Your task to perform on an android device: uninstall "Microsoft Excel" Image 0: 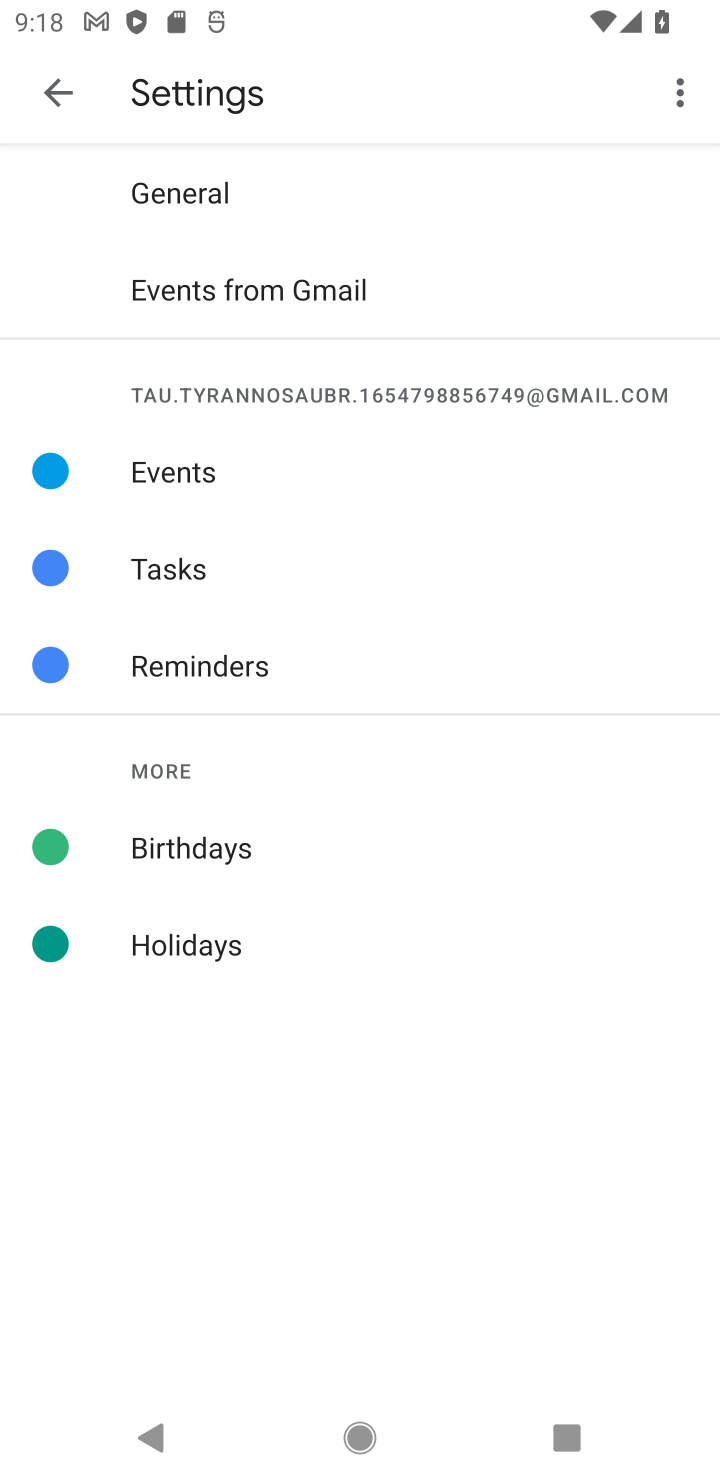
Step 0: click (46, 92)
Your task to perform on an android device: uninstall "Microsoft Excel" Image 1: 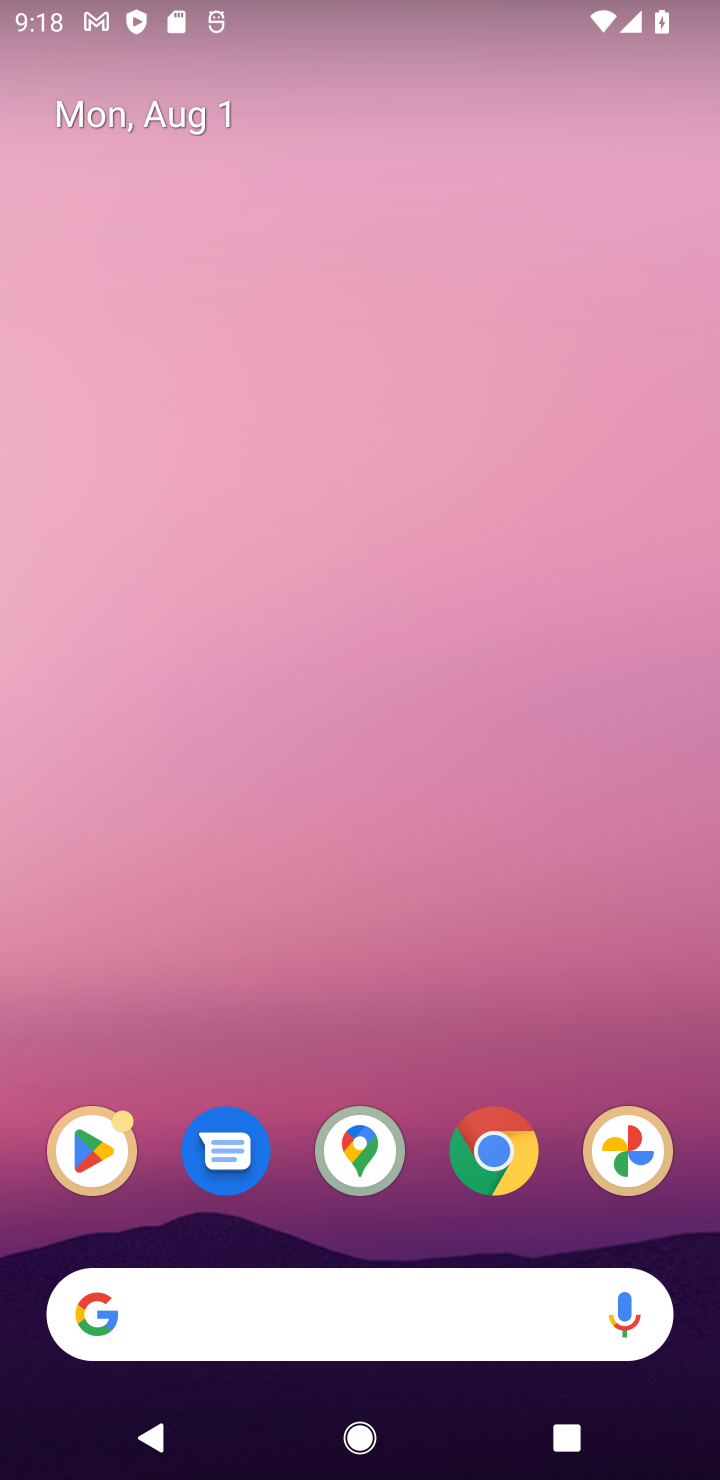
Step 1: drag from (368, 1284) to (270, 392)
Your task to perform on an android device: uninstall "Microsoft Excel" Image 2: 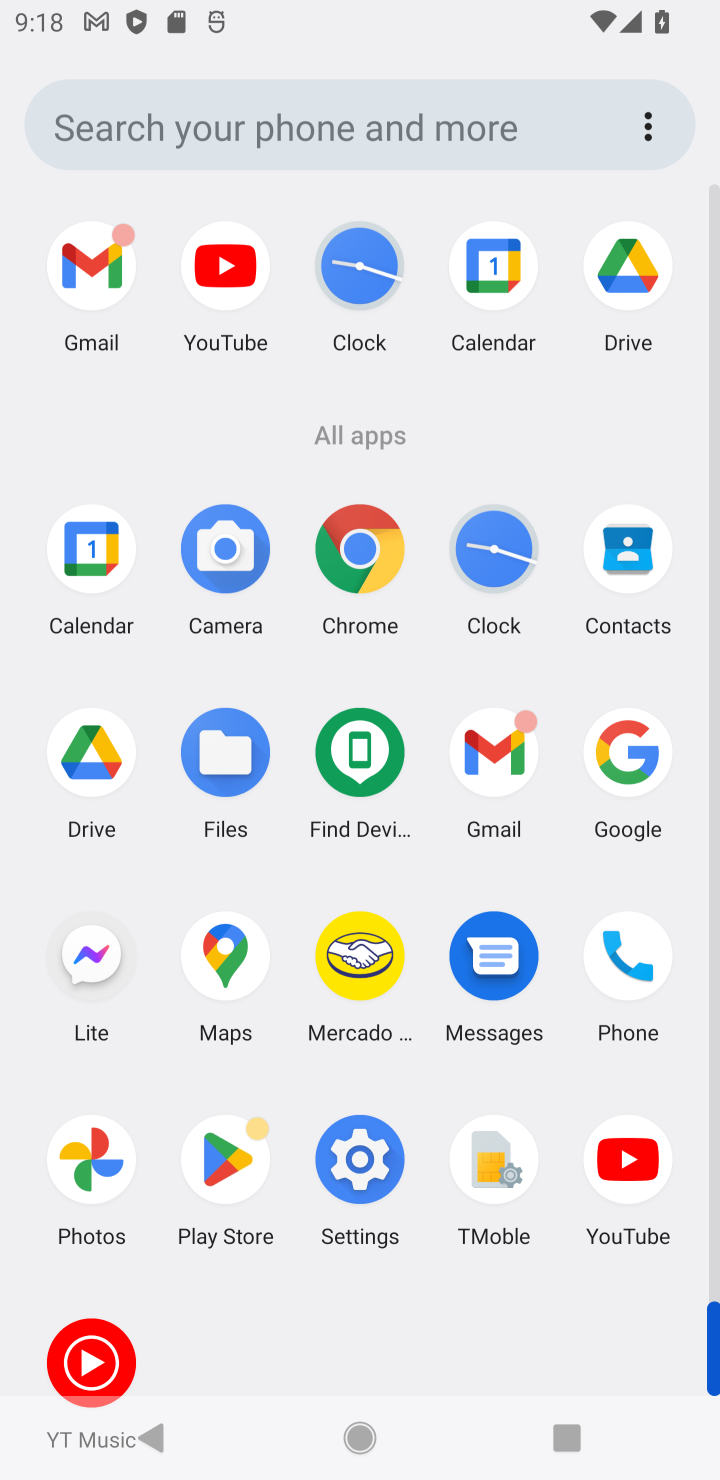
Step 2: drag from (357, 281) to (298, 346)
Your task to perform on an android device: uninstall "Microsoft Excel" Image 3: 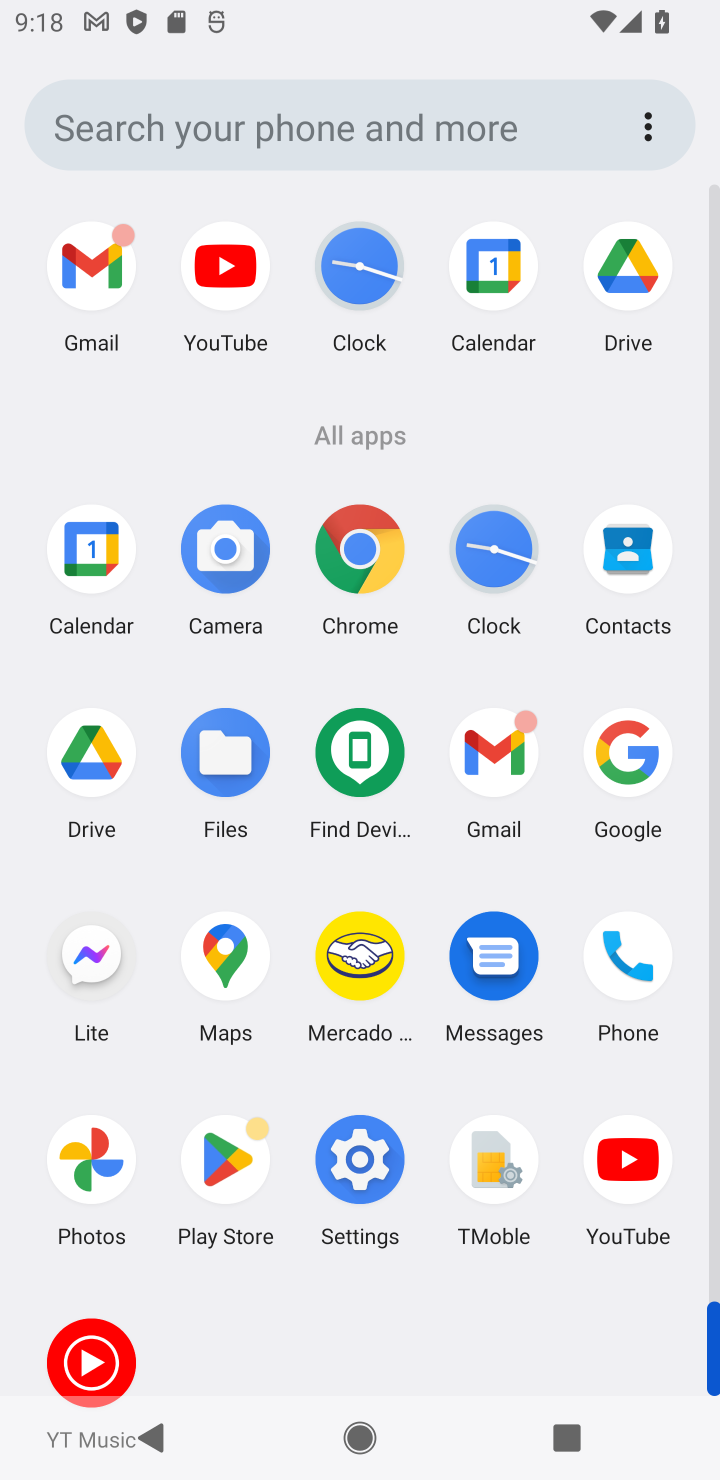
Step 3: drag from (454, 1103) to (307, 282)
Your task to perform on an android device: uninstall "Microsoft Excel" Image 4: 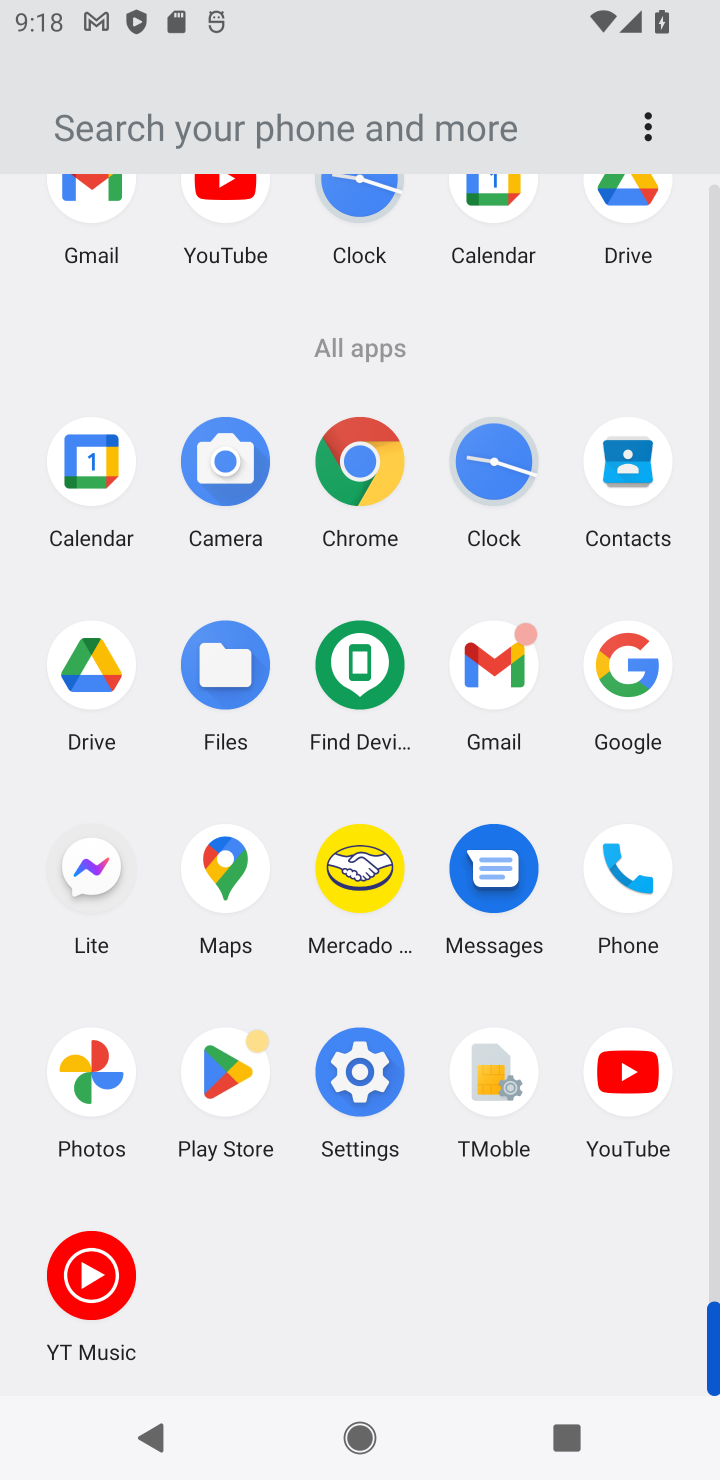
Step 4: click (214, 1097)
Your task to perform on an android device: uninstall "Microsoft Excel" Image 5: 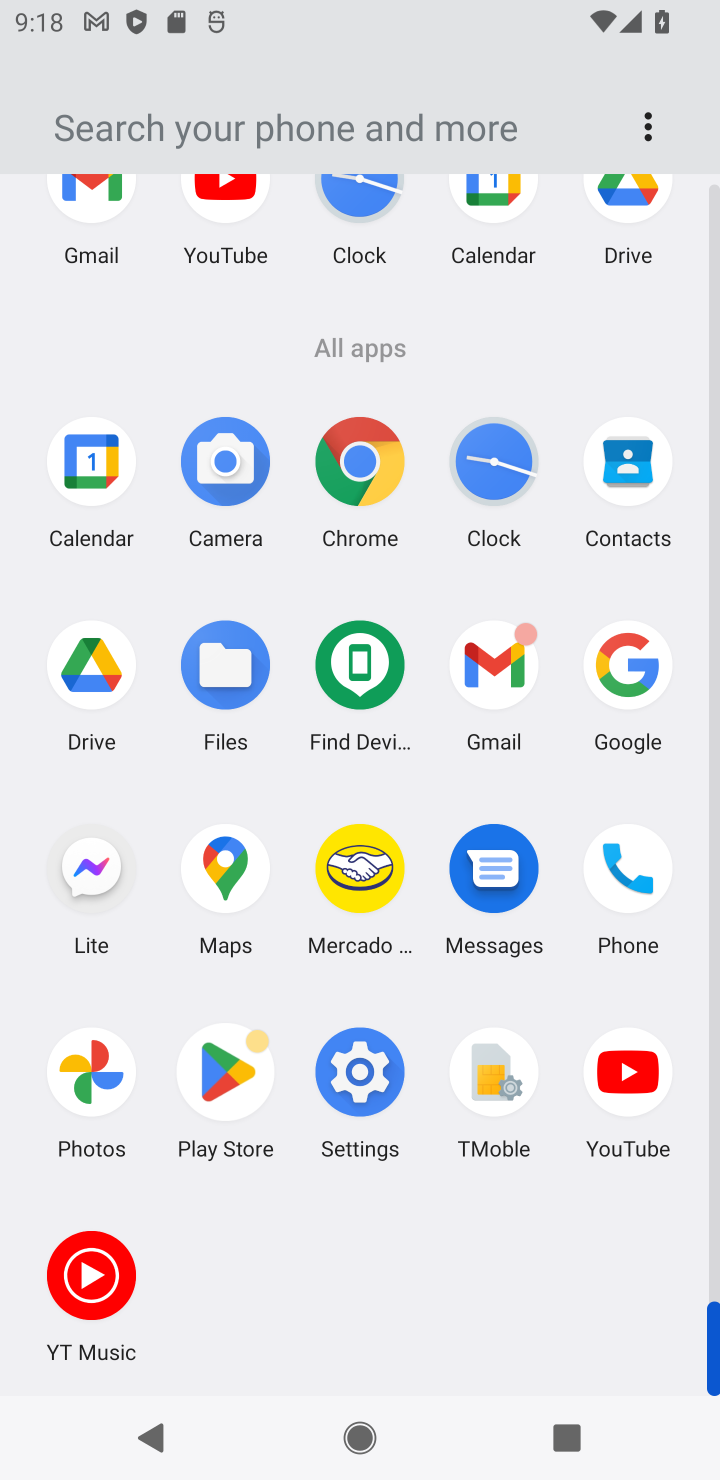
Step 5: click (220, 1090)
Your task to perform on an android device: uninstall "Microsoft Excel" Image 6: 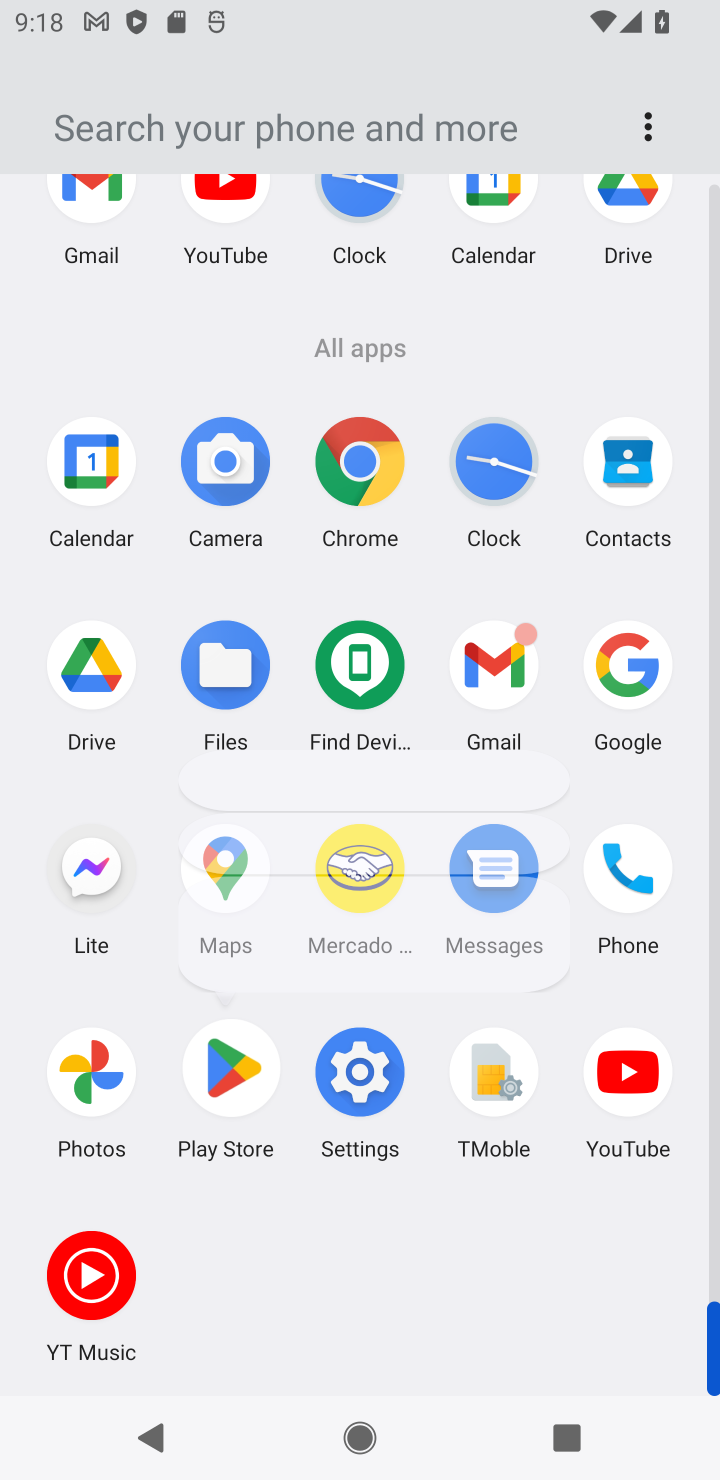
Step 6: click (235, 1084)
Your task to perform on an android device: uninstall "Microsoft Excel" Image 7: 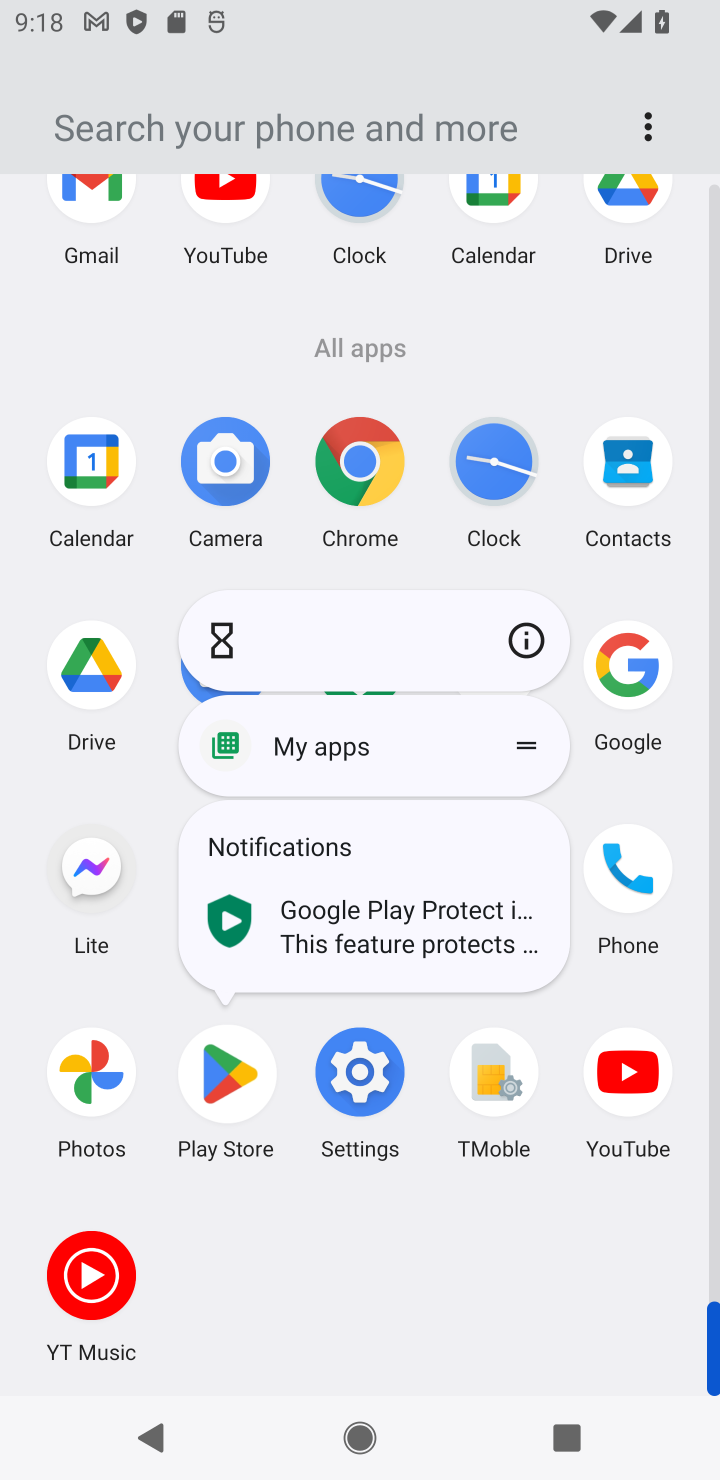
Step 7: click (237, 1088)
Your task to perform on an android device: uninstall "Microsoft Excel" Image 8: 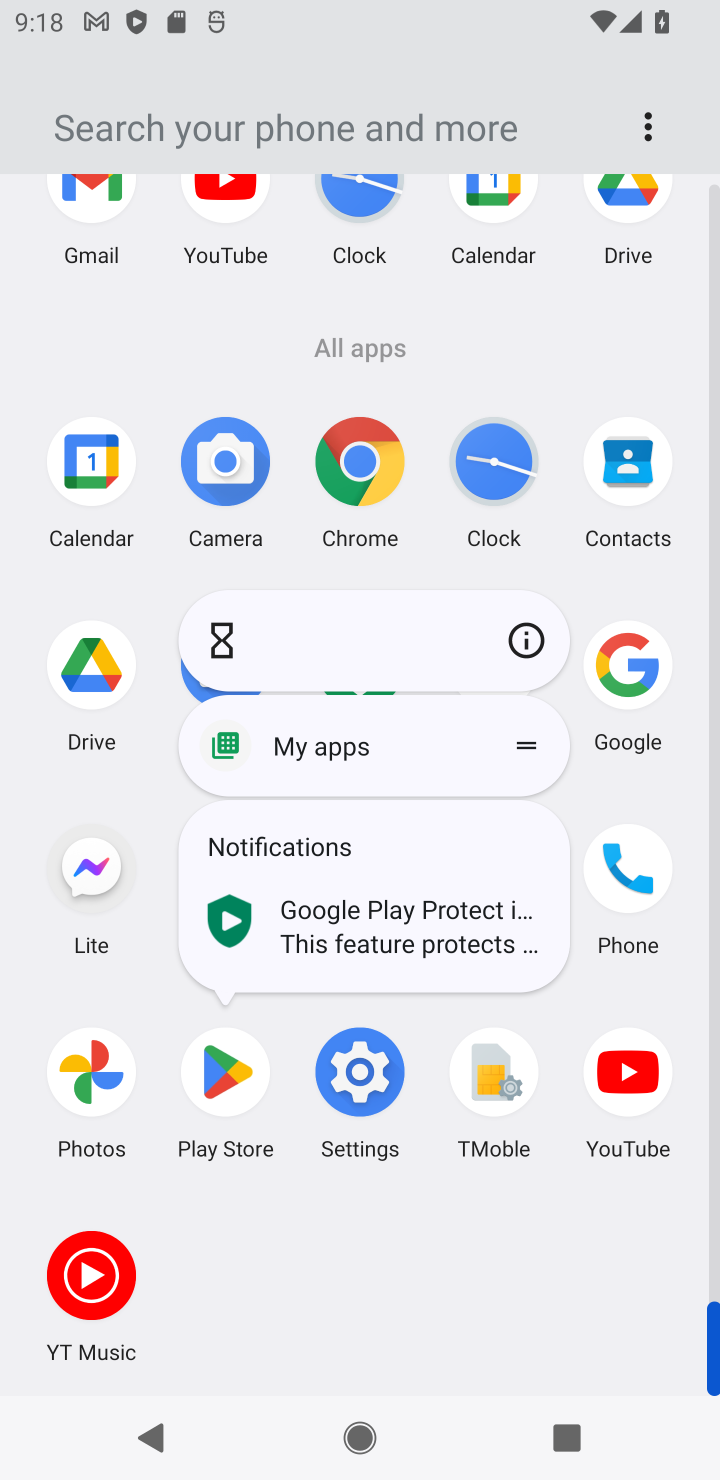
Step 8: click (201, 1049)
Your task to perform on an android device: uninstall "Microsoft Excel" Image 9: 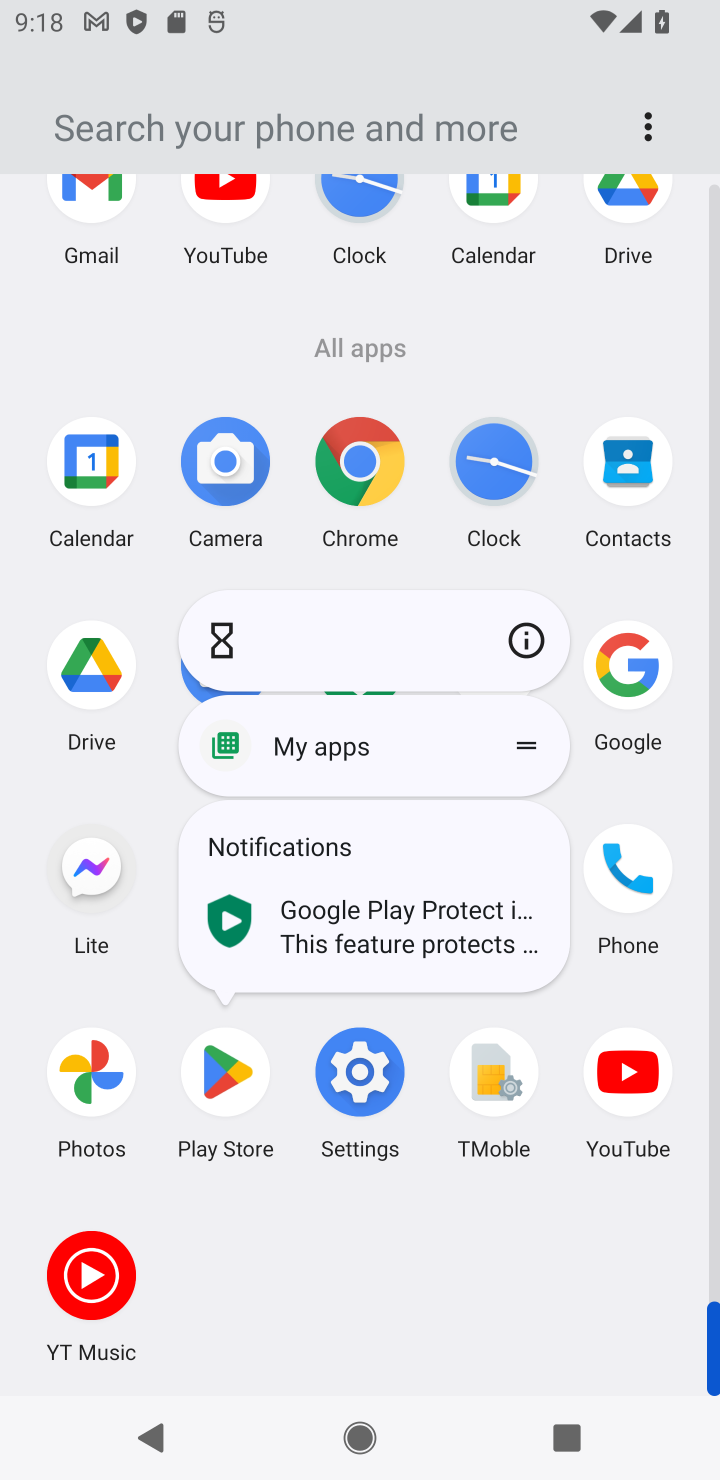
Step 9: click (207, 1065)
Your task to perform on an android device: uninstall "Microsoft Excel" Image 10: 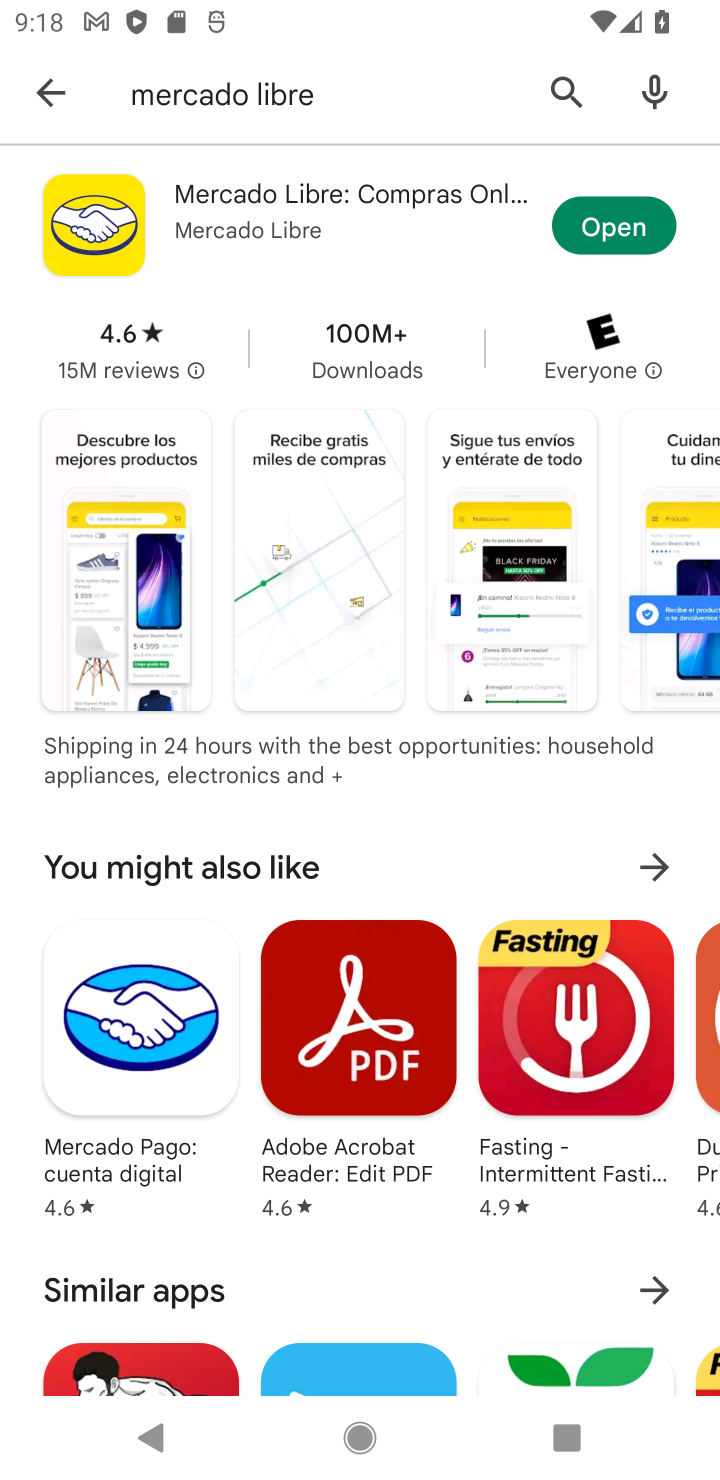
Step 10: click (58, 103)
Your task to perform on an android device: uninstall "Microsoft Excel" Image 11: 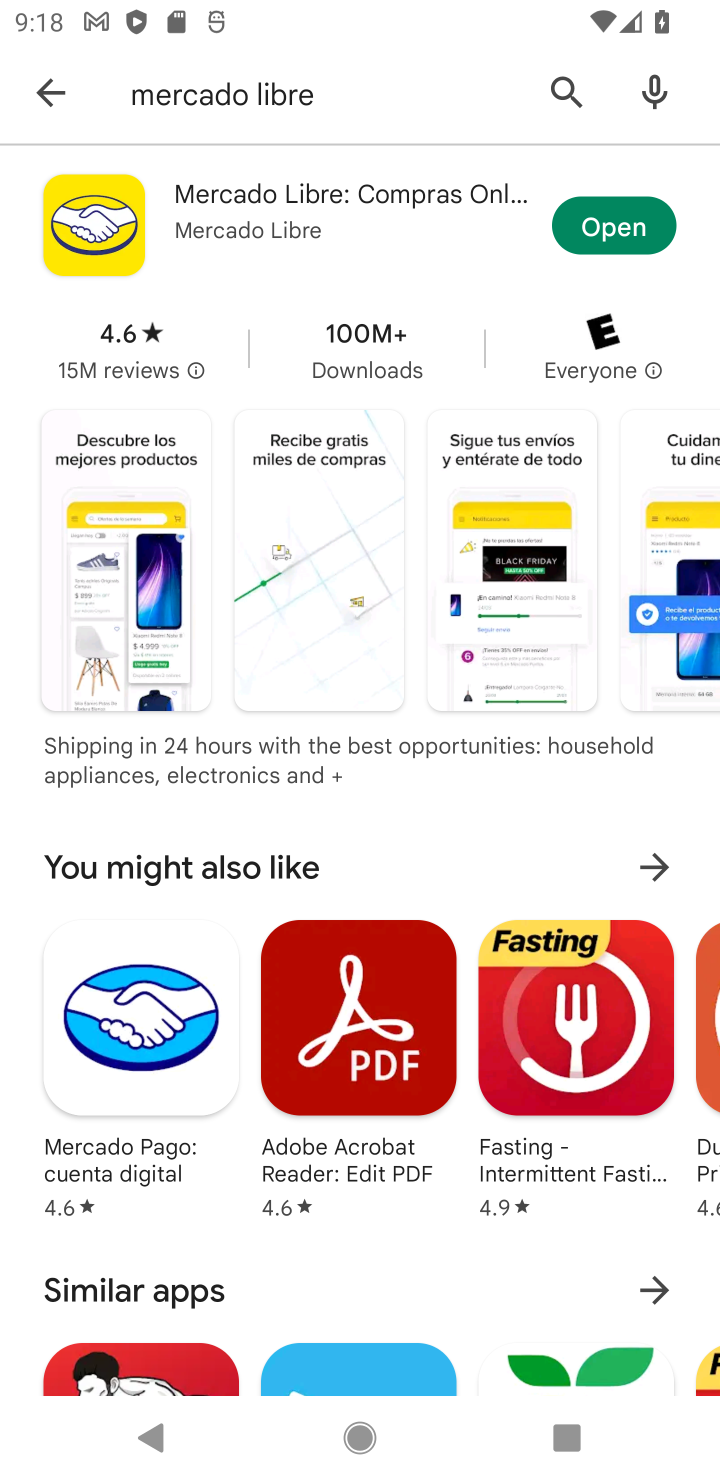
Step 11: click (38, 91)
Your task to perform on an android device: uninstall "Microsoft Excel" Image 12: 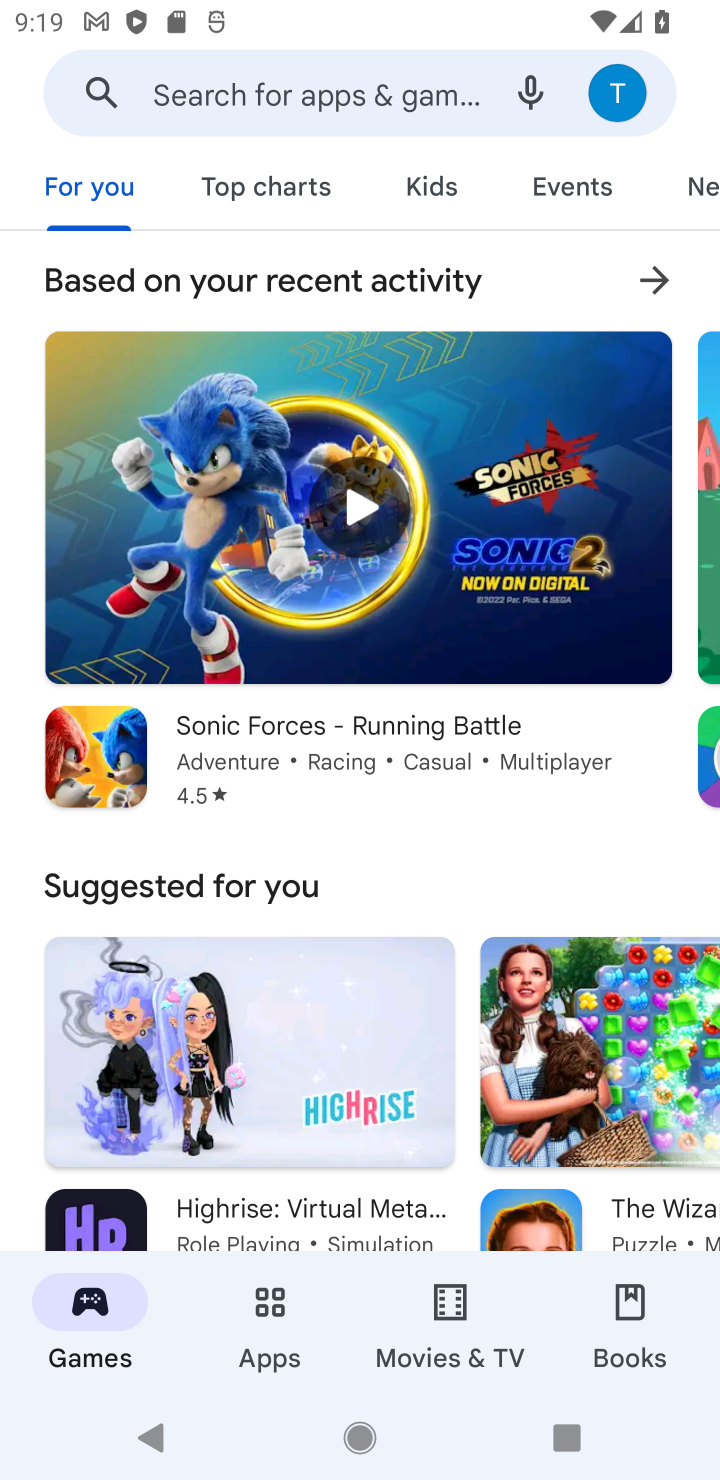
Step 12: press back button
Your task to perform on an android device: uninstall "Microsoft Excel" Image 13: 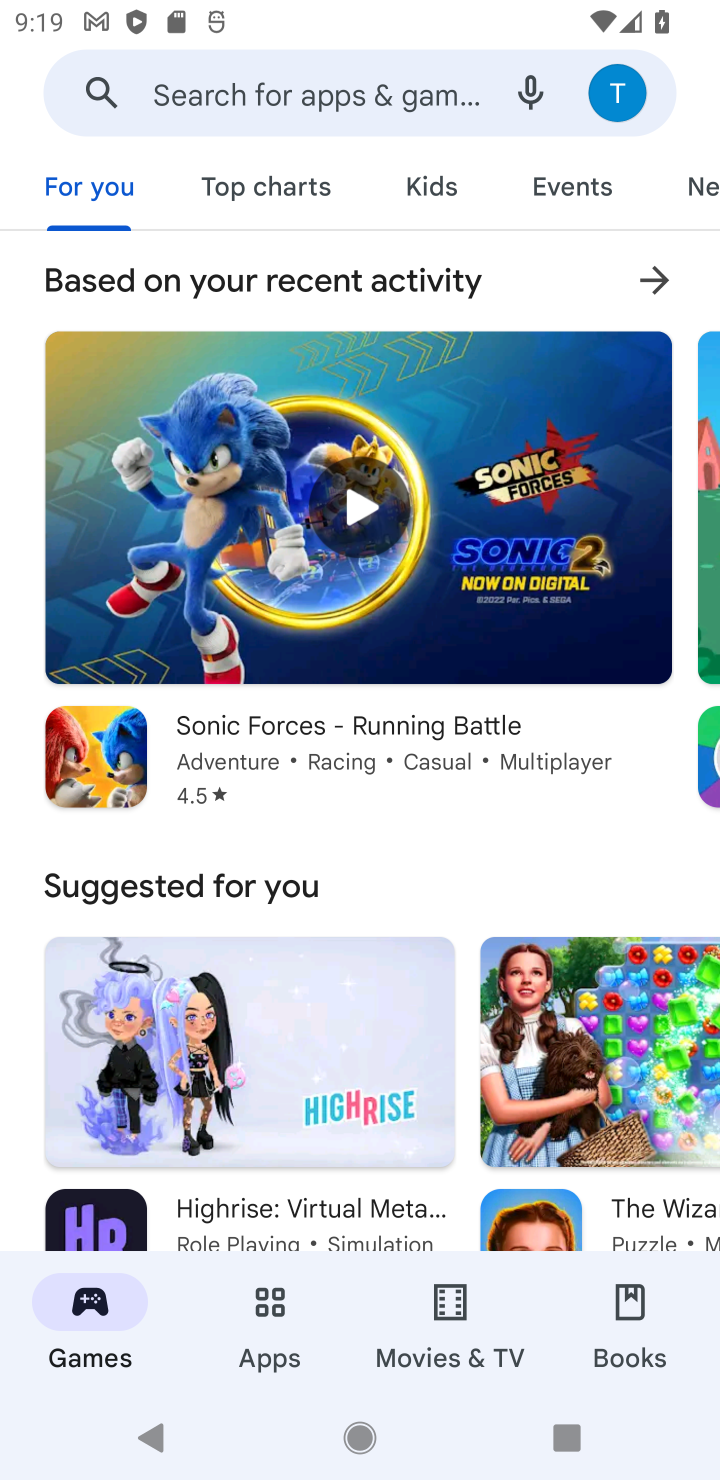
Step 13: press back button
Your task to perform on an android device: uninstall "Microsoft Excel" Image 14: 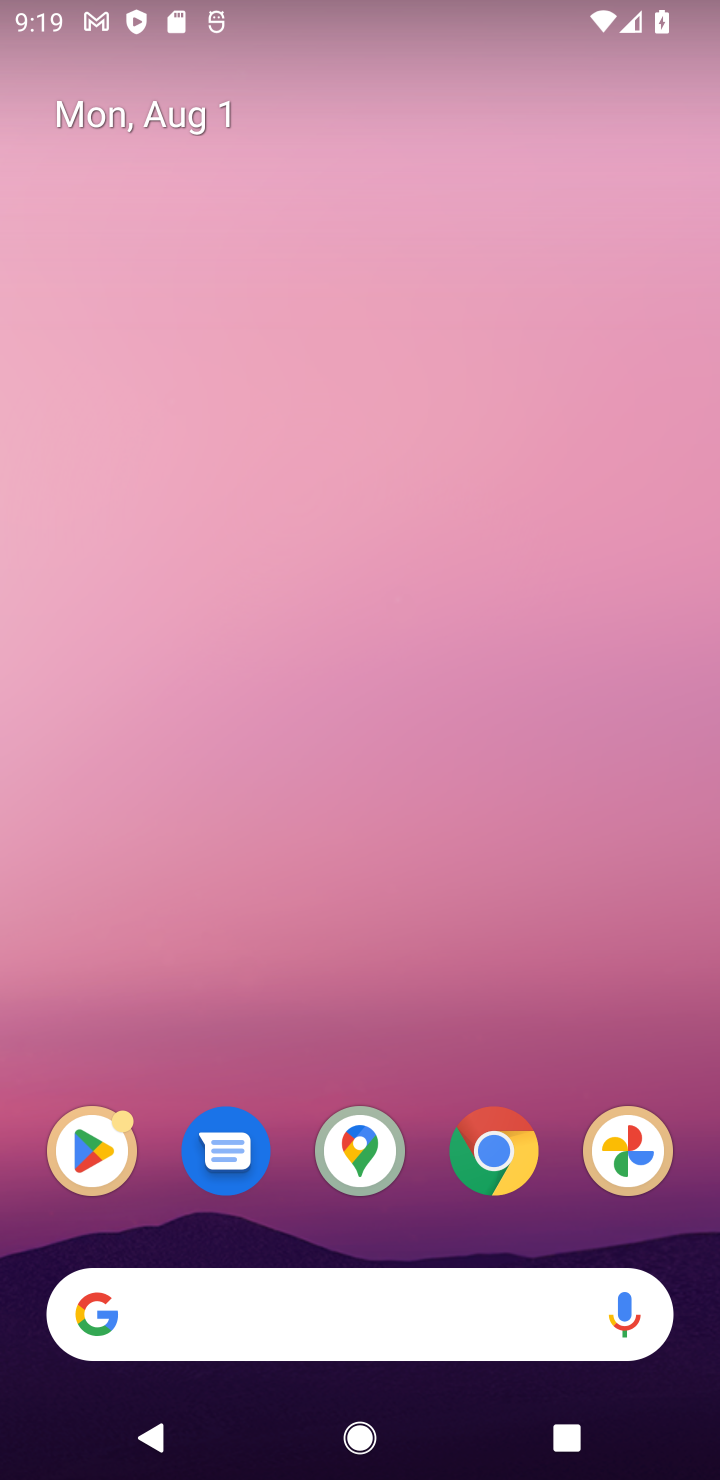
Step 14: drag from (323, 1230) to (188, 263)
Your task to perform on an android device: uninstall "Microsoft Excel" Image 15: 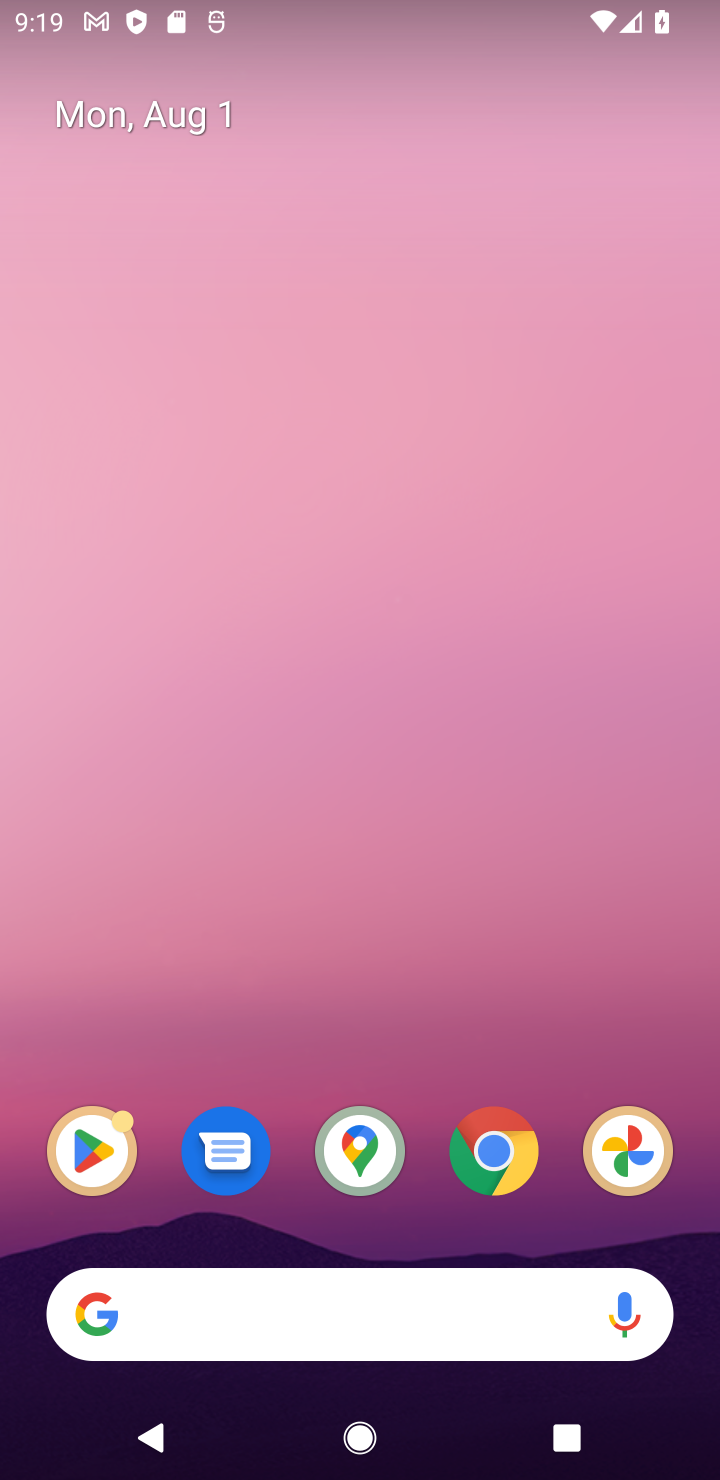
Step 15: drag from (416, 1190) to (317, 521)
Your task to perform on an android device: uninstall "Microsoft Excel" Image 16: 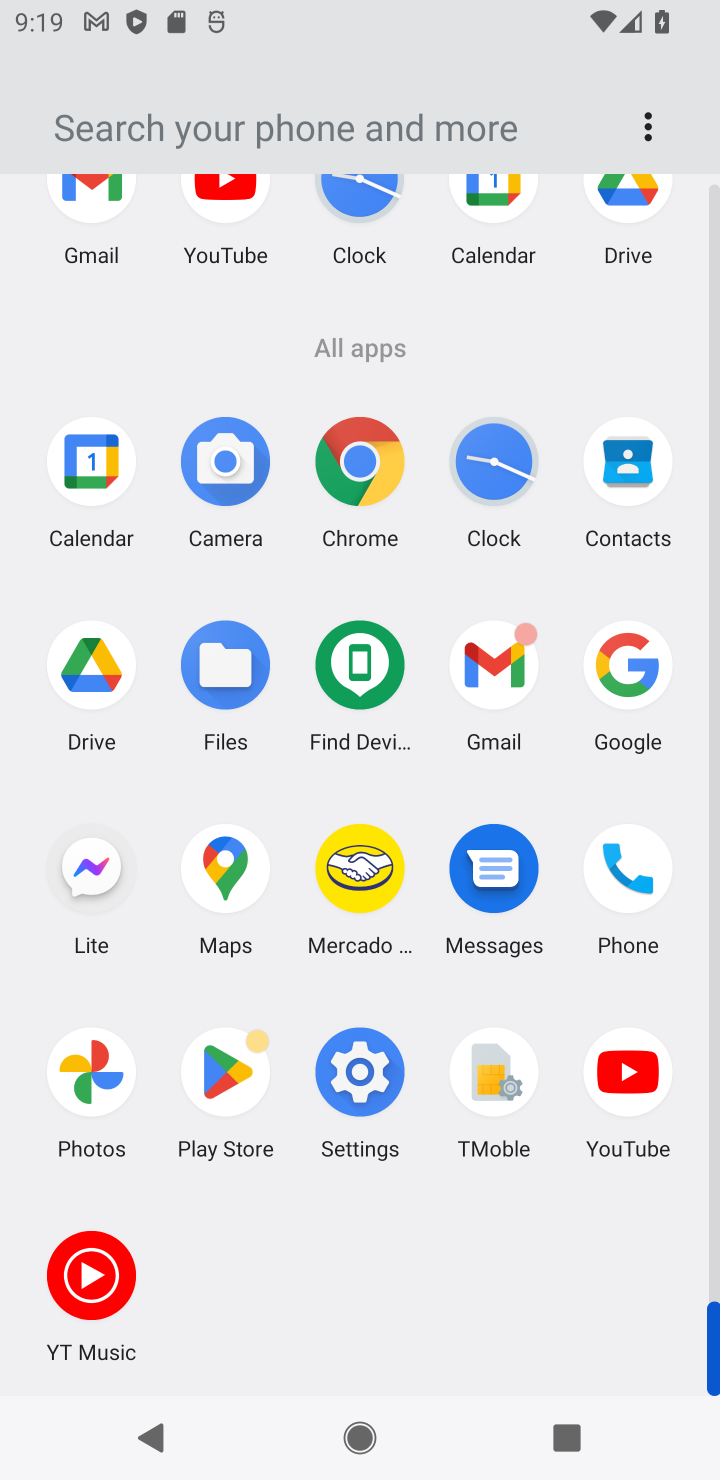
Step 16: click (220, 1063)
Your task to perform on an android device: uninstall "Microsoft Excel" Image 17: 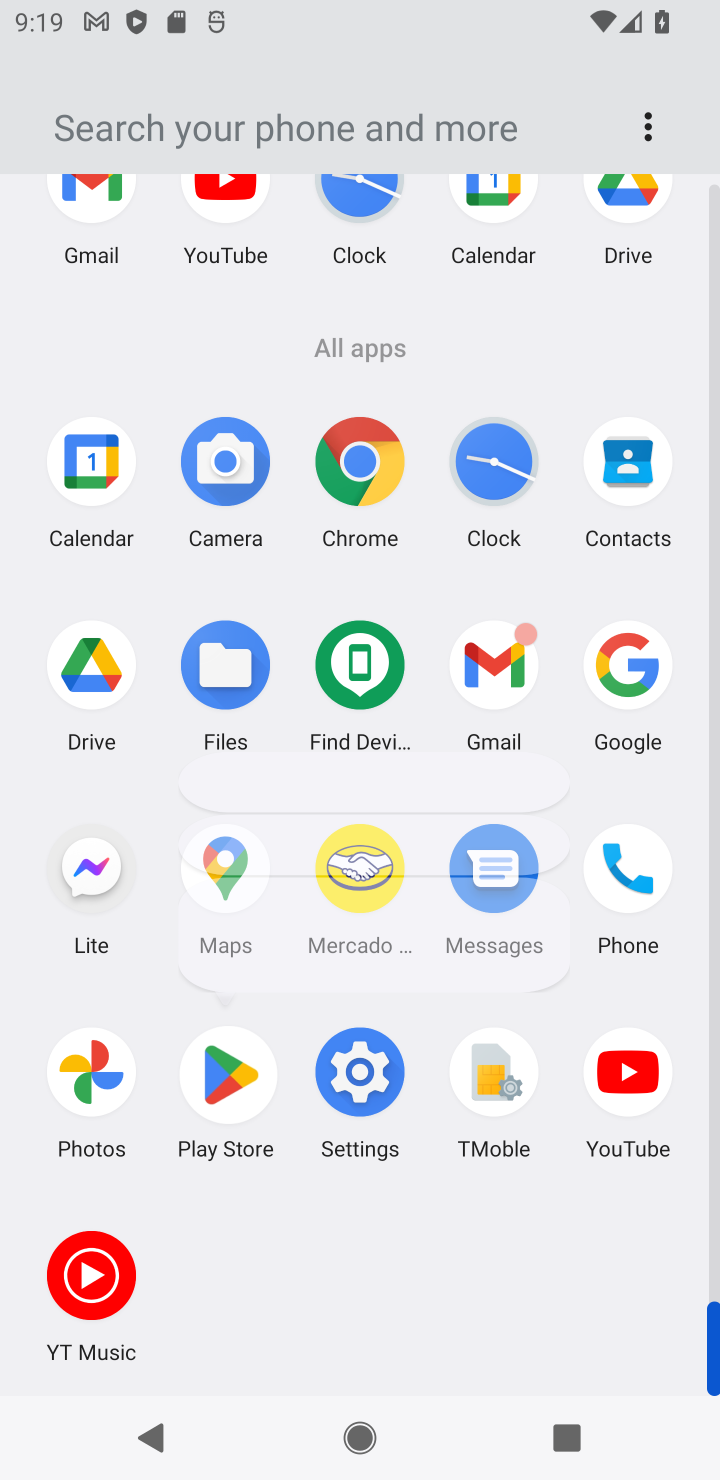
Step 17: click (225, 1069)
Your task to perform on an android device: uninstall "Microsoft Excel" Image 18: 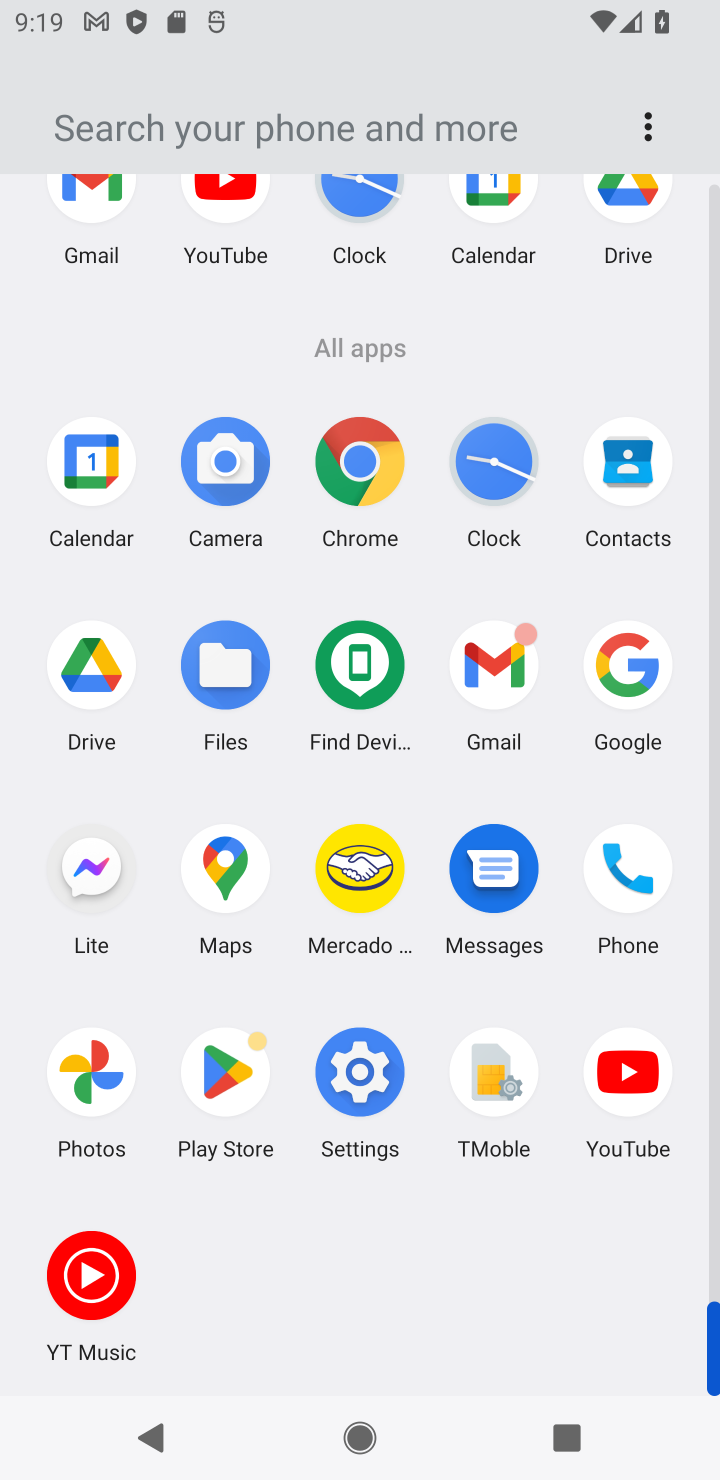
Step 18: click (235, 1067)
Your task to perform on an android device: uninstall "Microsoft Excel" Image 19: 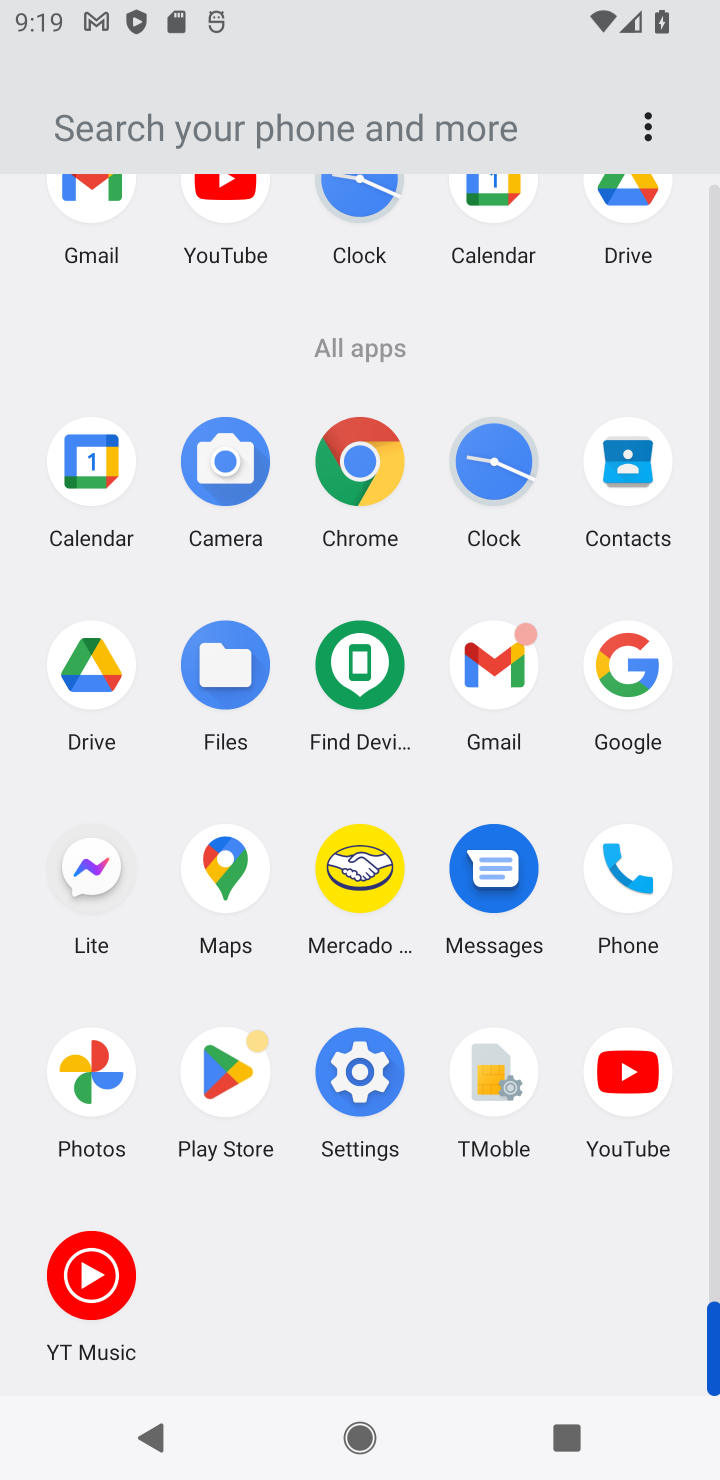
Step 19: click (248, 1073)
Your task to perform on an android device: uninstall "Microsoft Excel" Image 20: 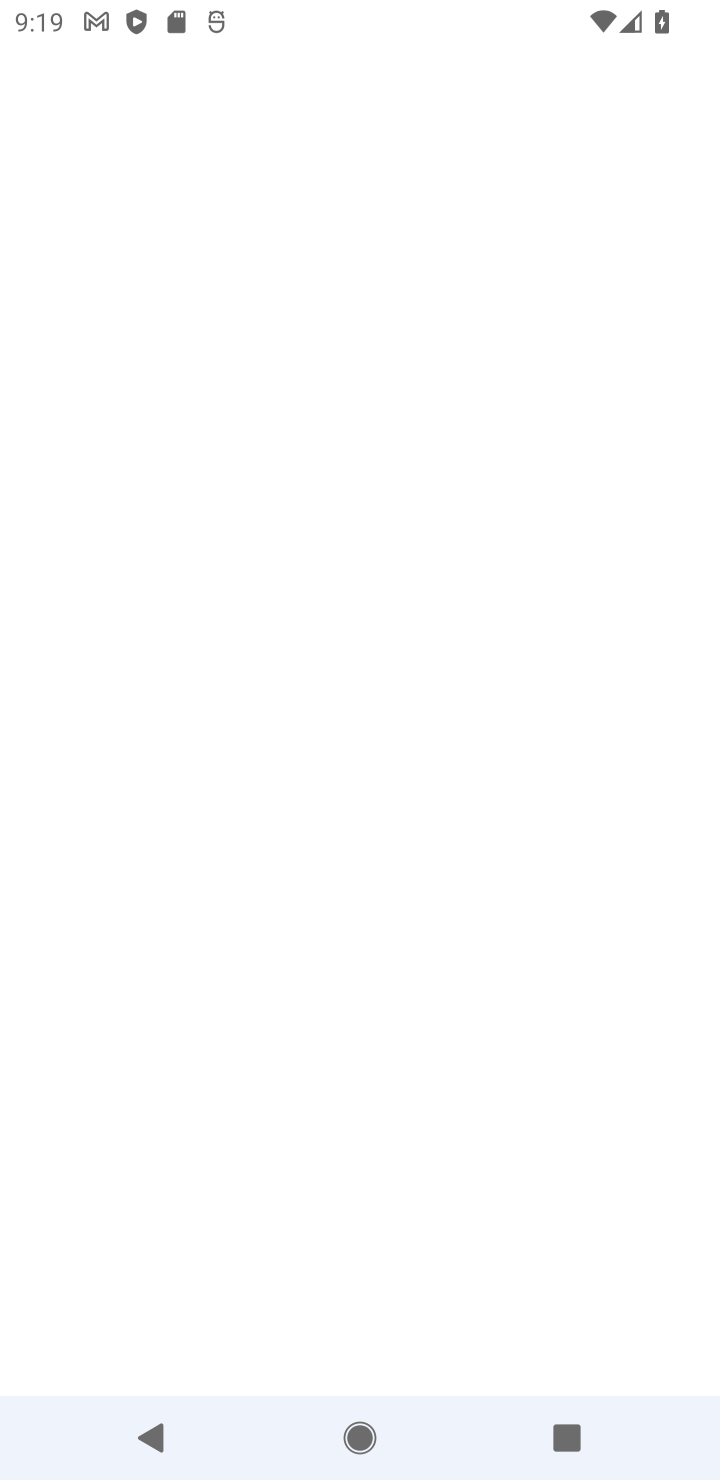
Step 20: click (245, 1111)
Your task to perform on an android device: uninstall "Microsoft Excel" Image 21: 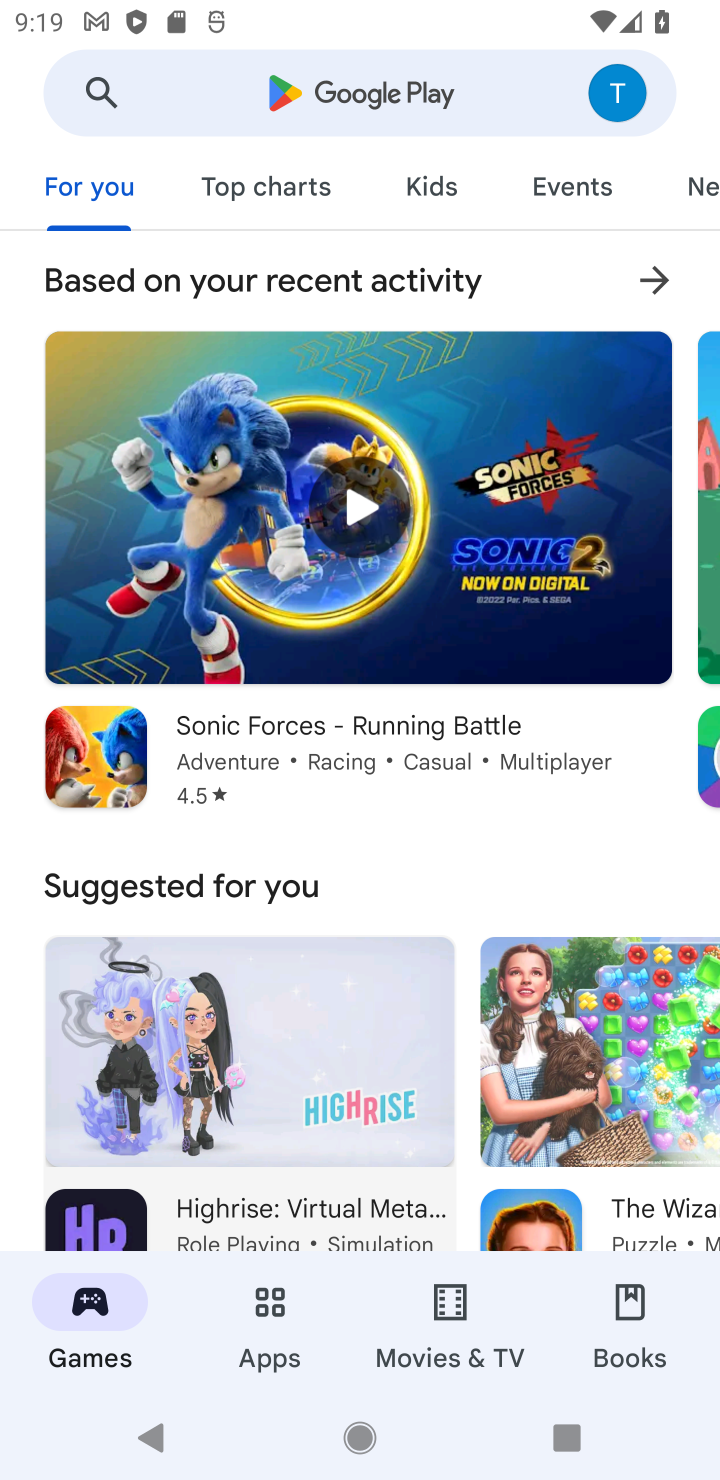
Step 21: click (407, 105)
Your task to perform on an android device: uninstall "Microsoft Excel" Image 22: 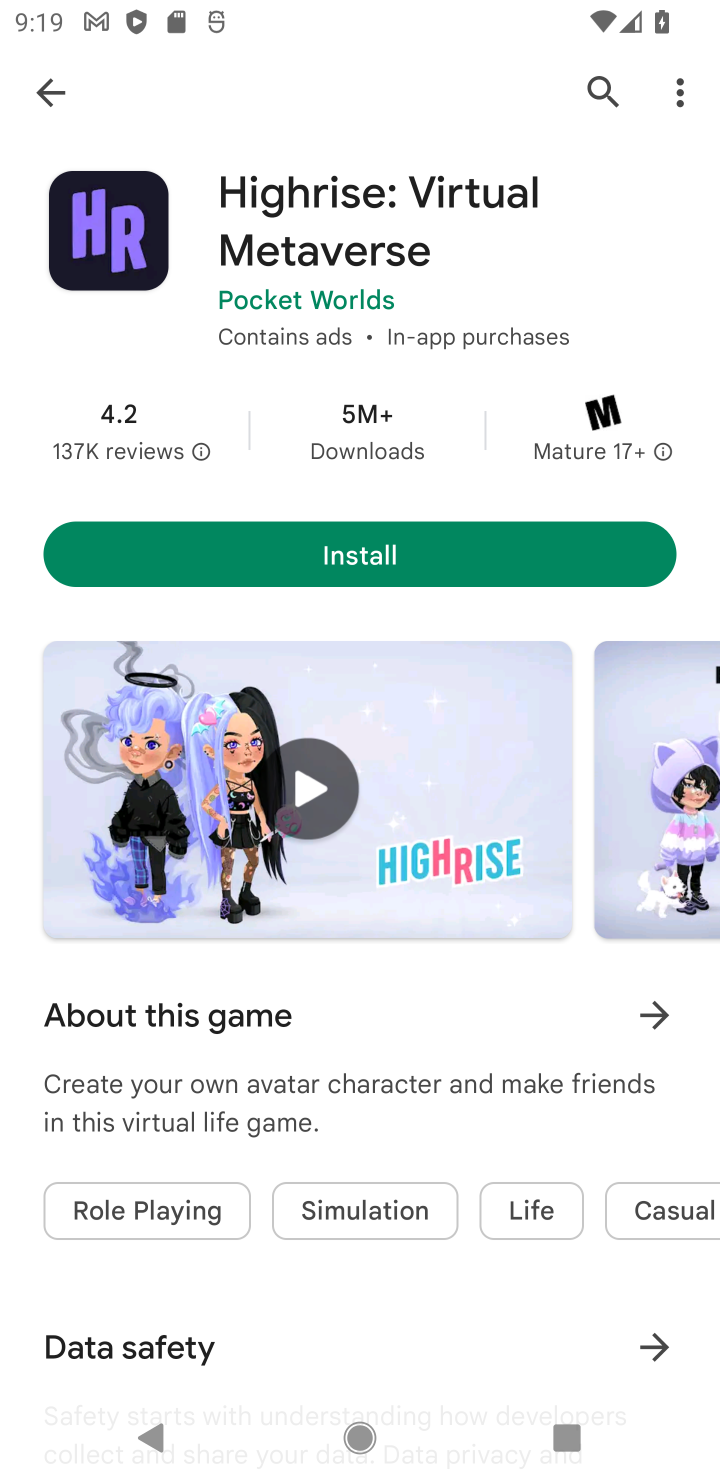
Step 22: click (63, 82)
Your task to perform on an android device: uninstall "Microsoft Excel" Image 23: 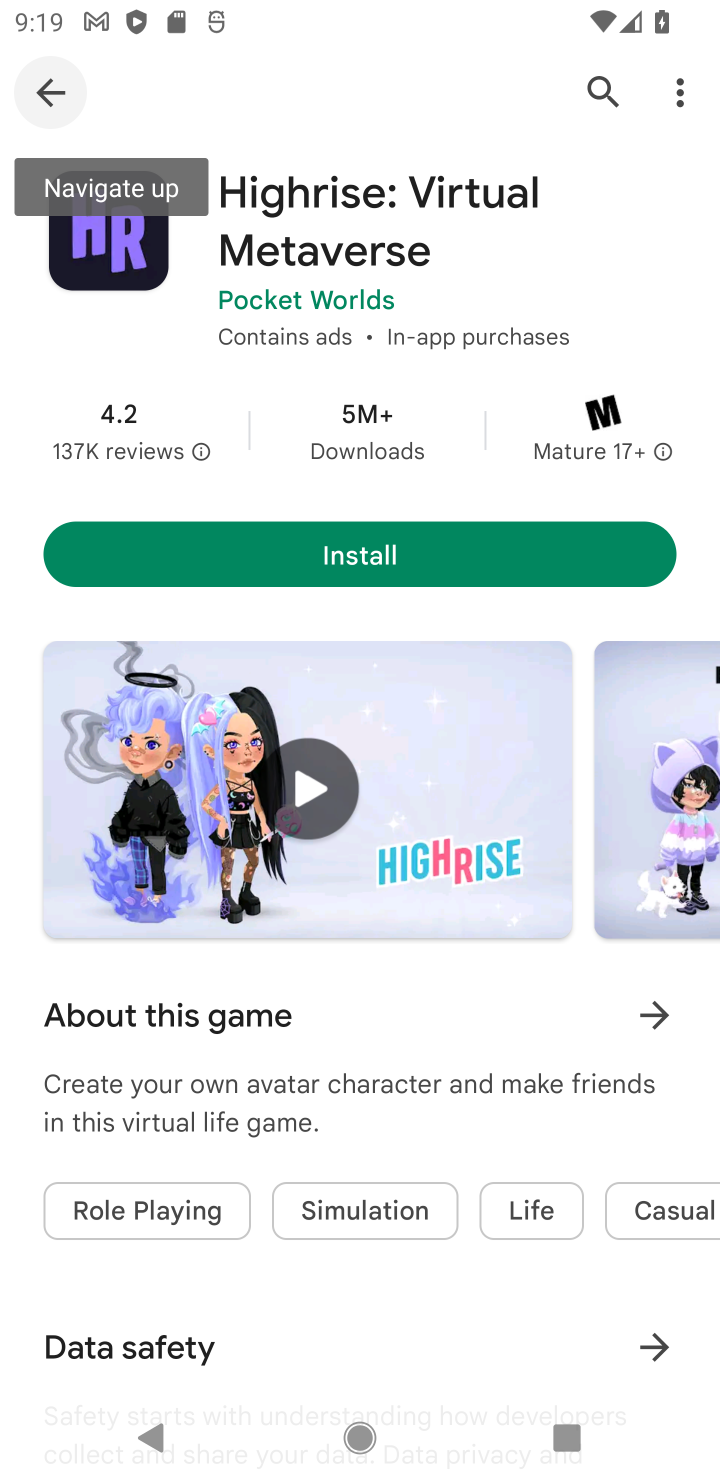
Step 23: click (63, 72)
Your task to perform on an android device: uninstall "Microsoft Excel" Image 24: 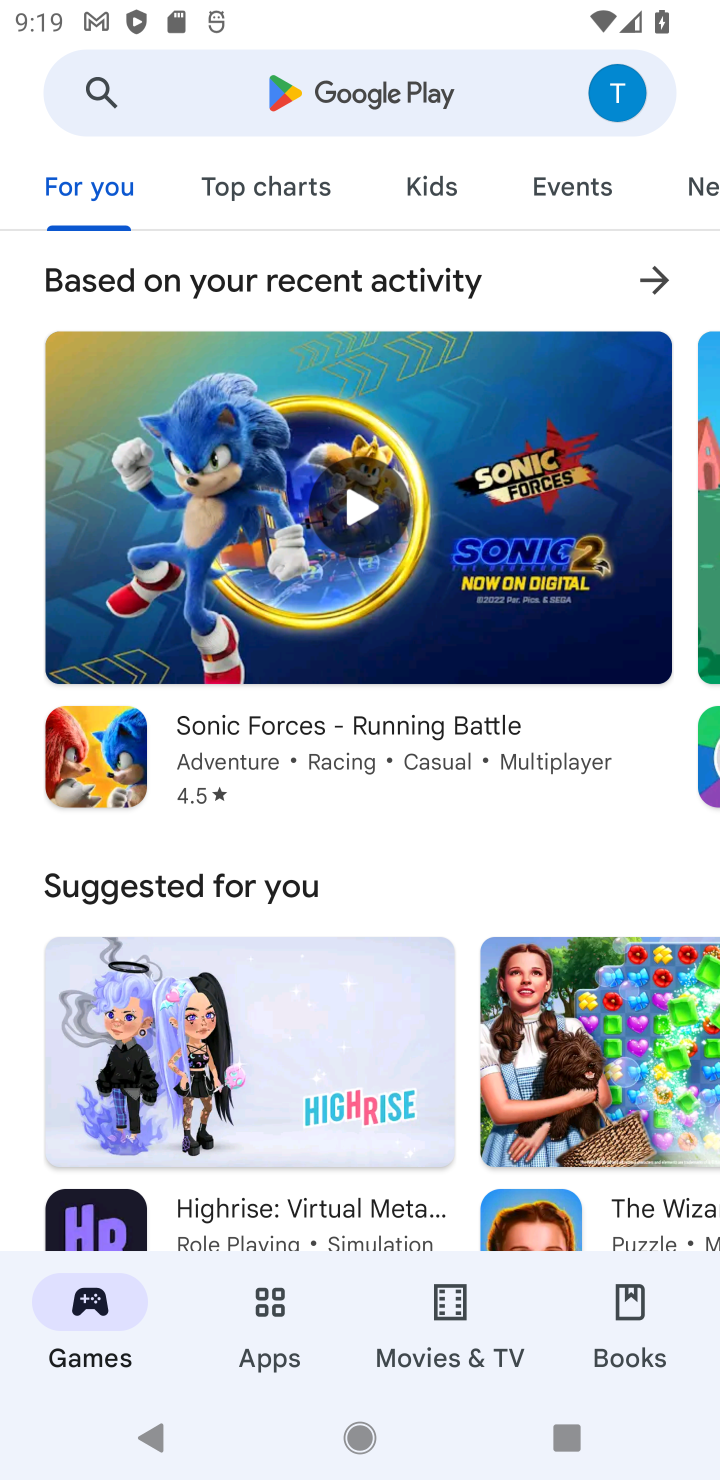
Step 24: click (55, 81)
Your task to perform on an android device: uninstall "Microsoft Excel" Image 25: 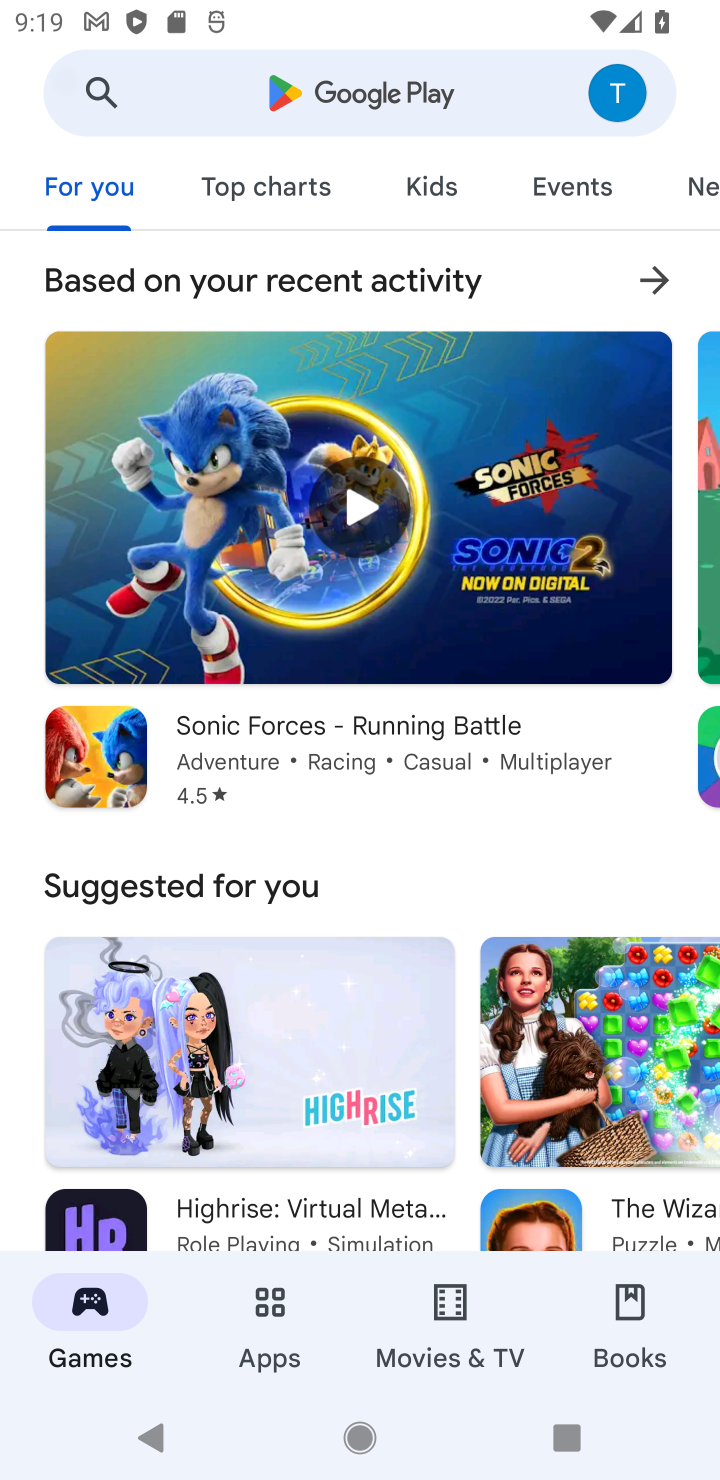
Step 25: drag from (223, 72) to (326, 96)
Your task to perform on an android device: uninstall "Microsoft Excel" Image 26: 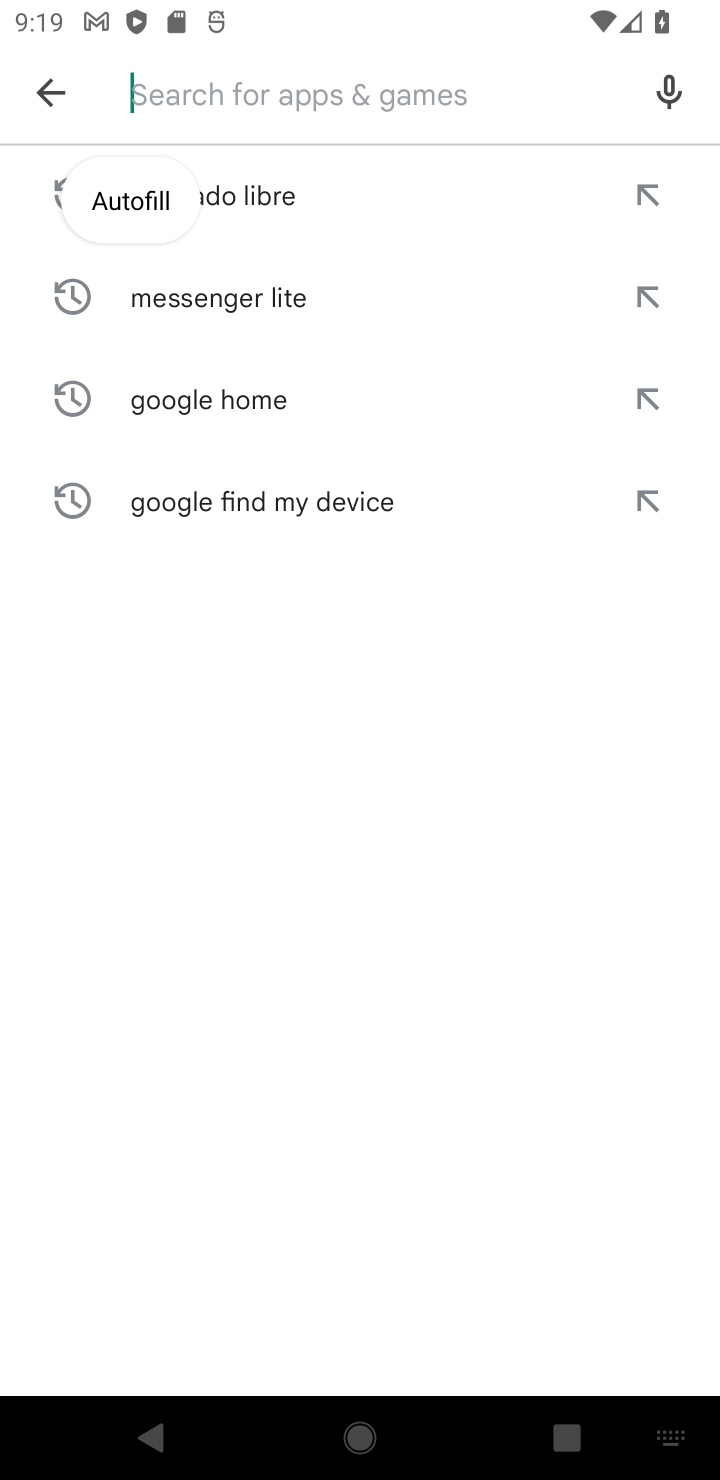
Step 26: type "microsoft excell"
Your task to perform on an android device: uninstall "Microsoft Excel" Image 27: 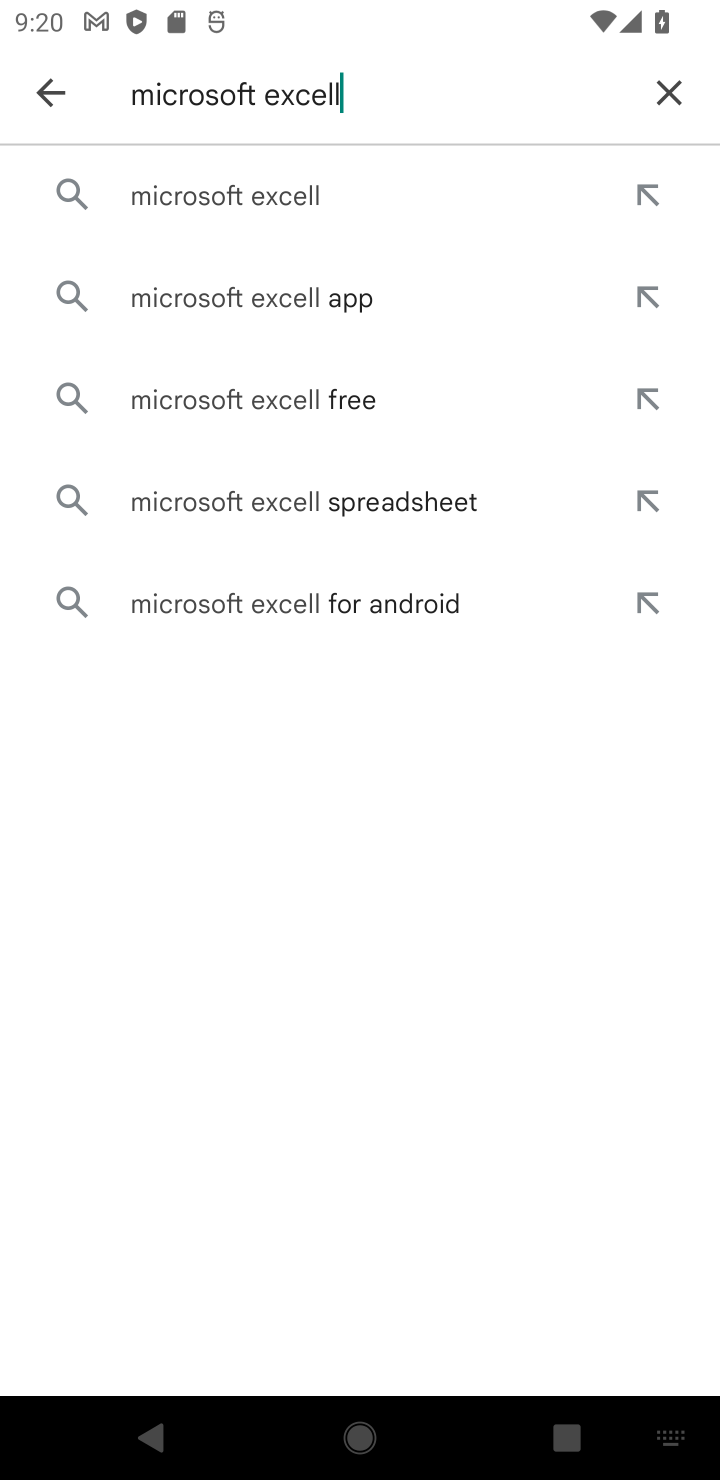
Step 27: click (226, 184)
Your task to perform on an android device: uninstall "Microsoft Excel" Image 28: 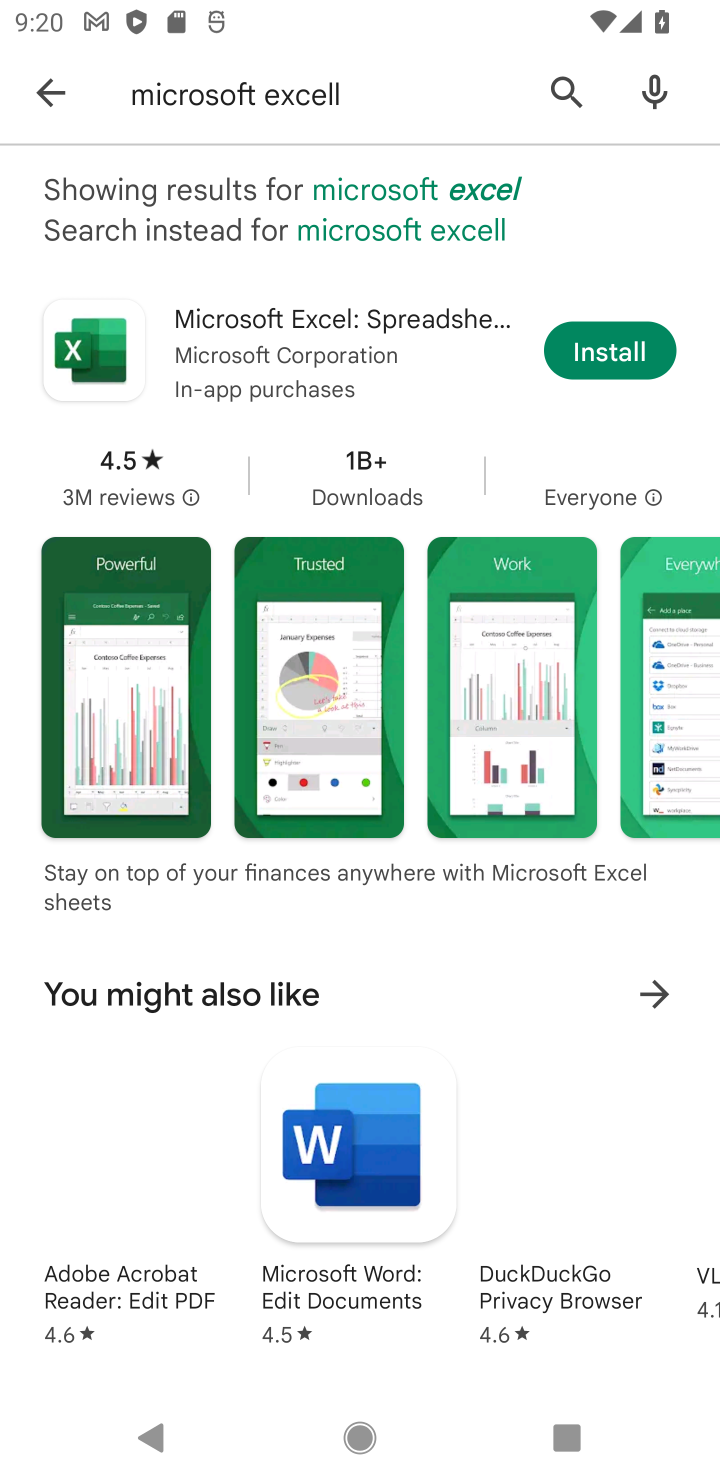
Step 28: click (603, 328)
Your task to perform on an android device: uninstall "Microsoft Excel" Image 29: 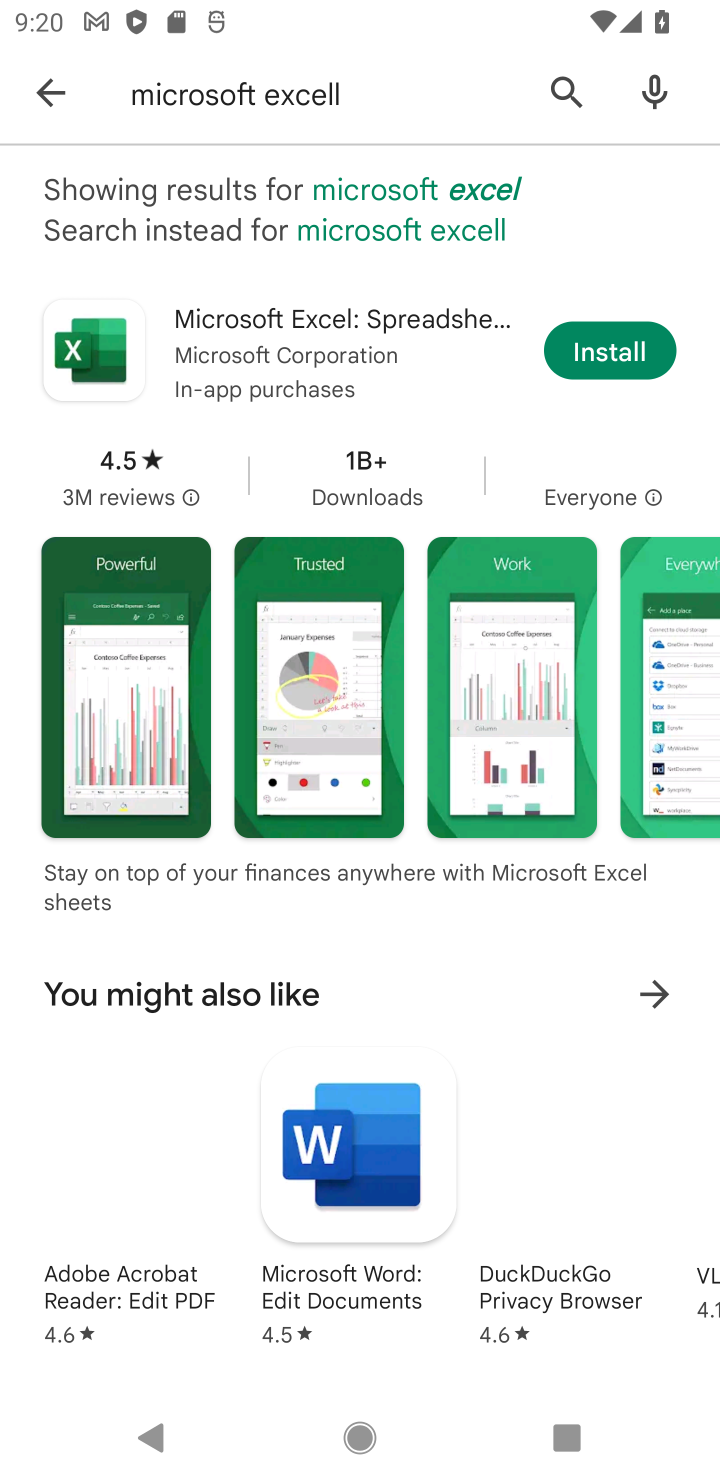
Step 29: click (594, 316)
Your task to perform on an android device: uninstall "Microsoft Excel" Image 30: 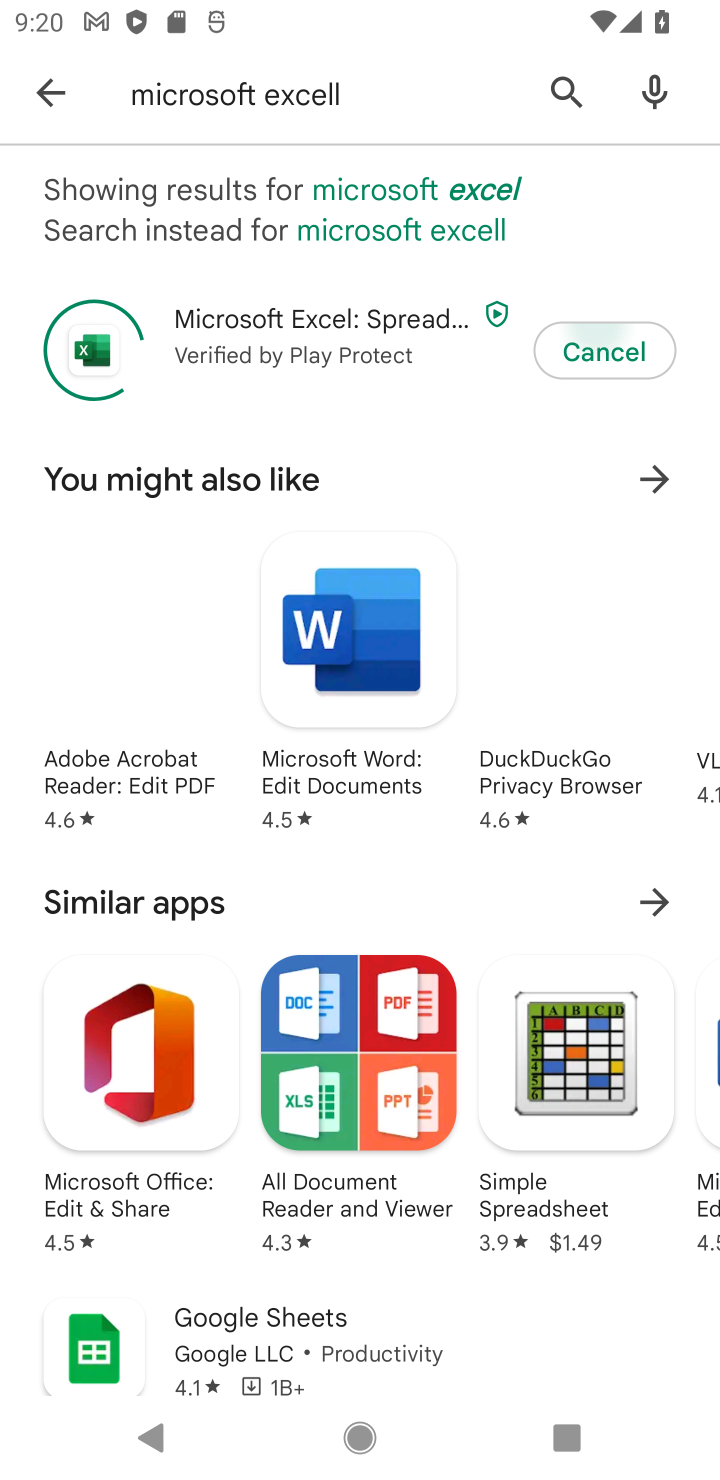
Step 30: click (608, 323)
Your task to perform on an android device: uninstall "Microsoft Excel" Image 31: 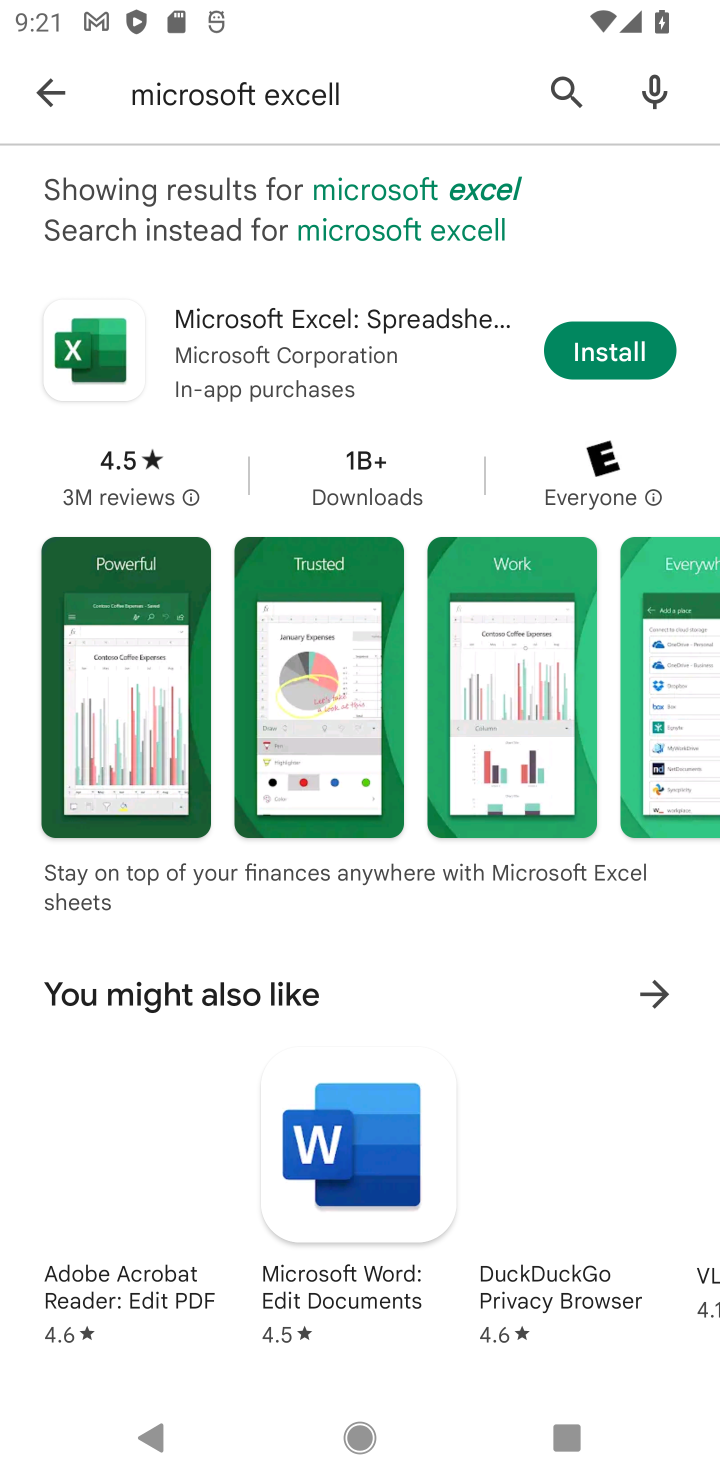
Step 31: click (624, 371)
Your task to perform on an android device: uninstall "Microsoft Excel" Image 32: 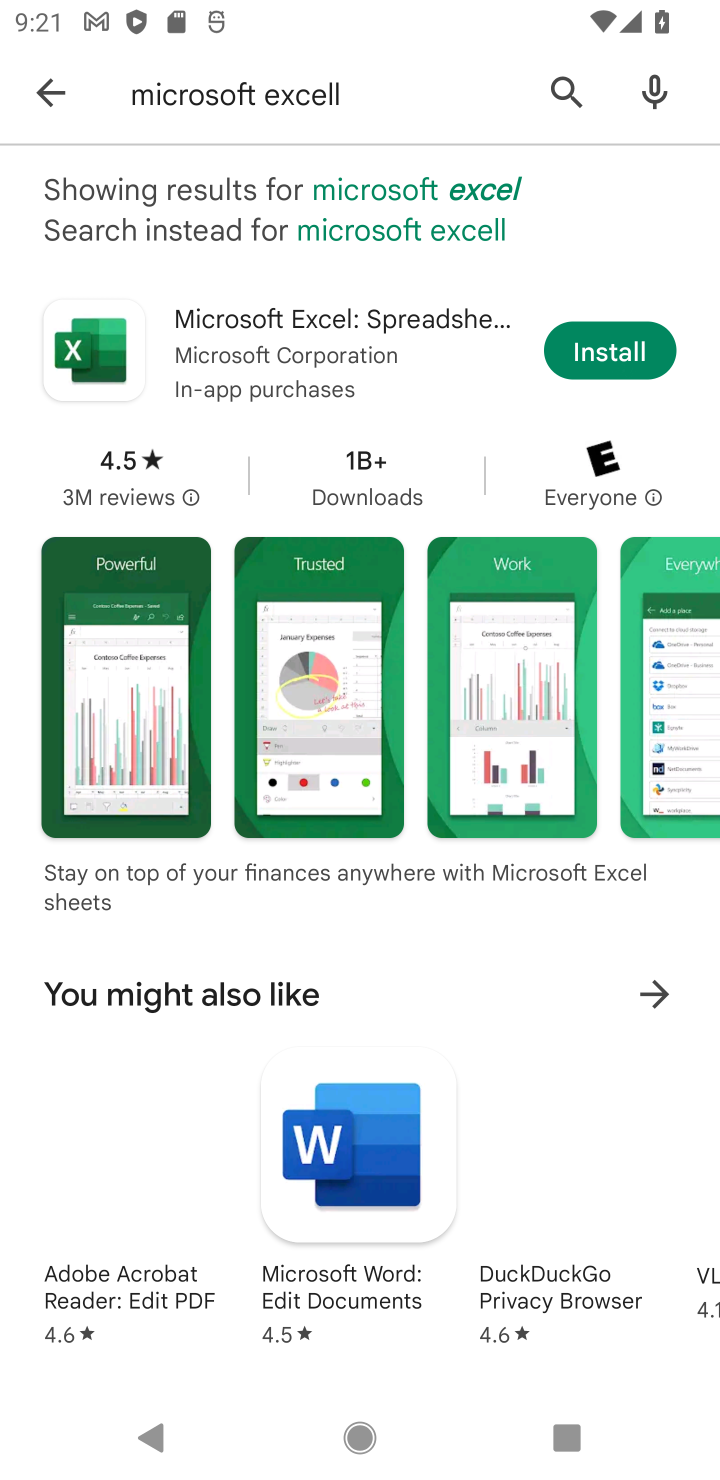
Step 32: click (612, 349)
Your task to perform on an android device: uninstall "Microsoft Excel" Image 33: 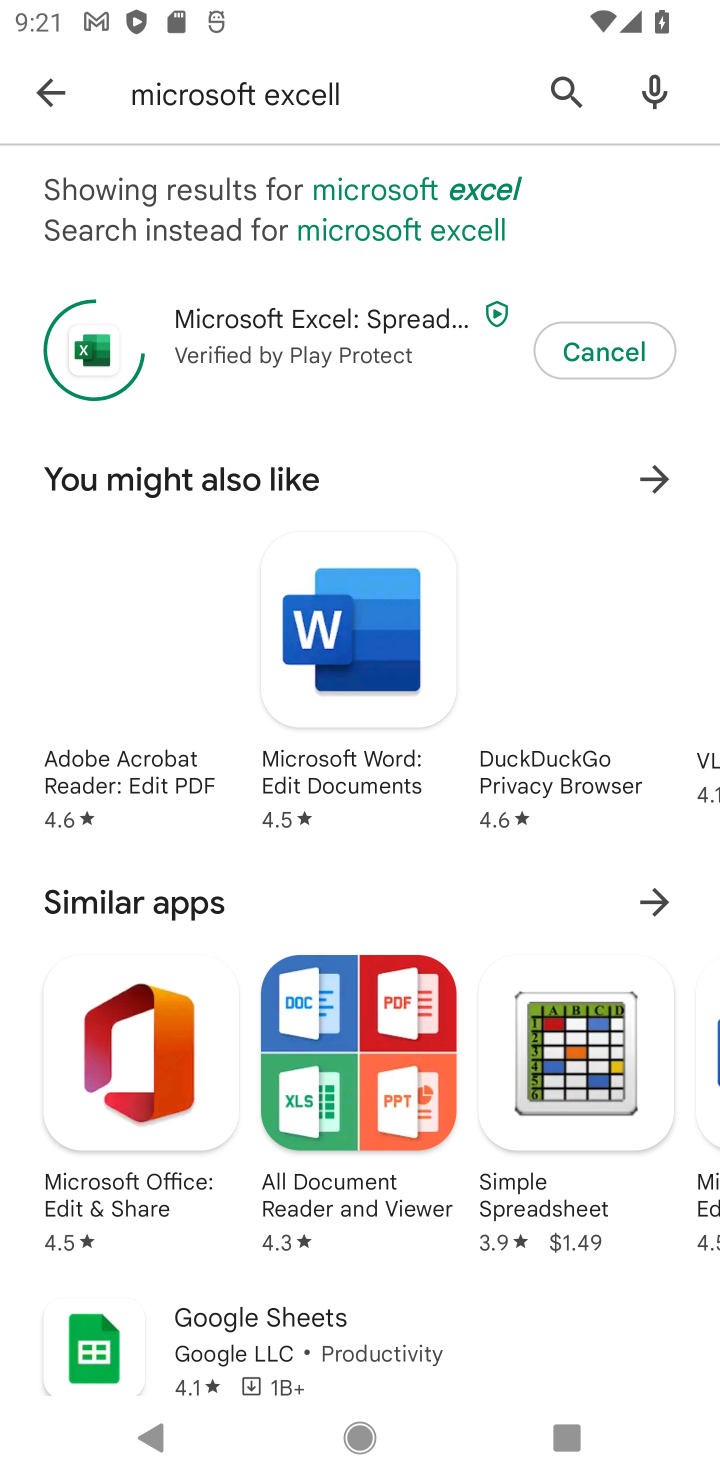
Step 33: click (616, 330)
Your task to perform on an android device: uninstall "Microsoft Excel" Image 34: 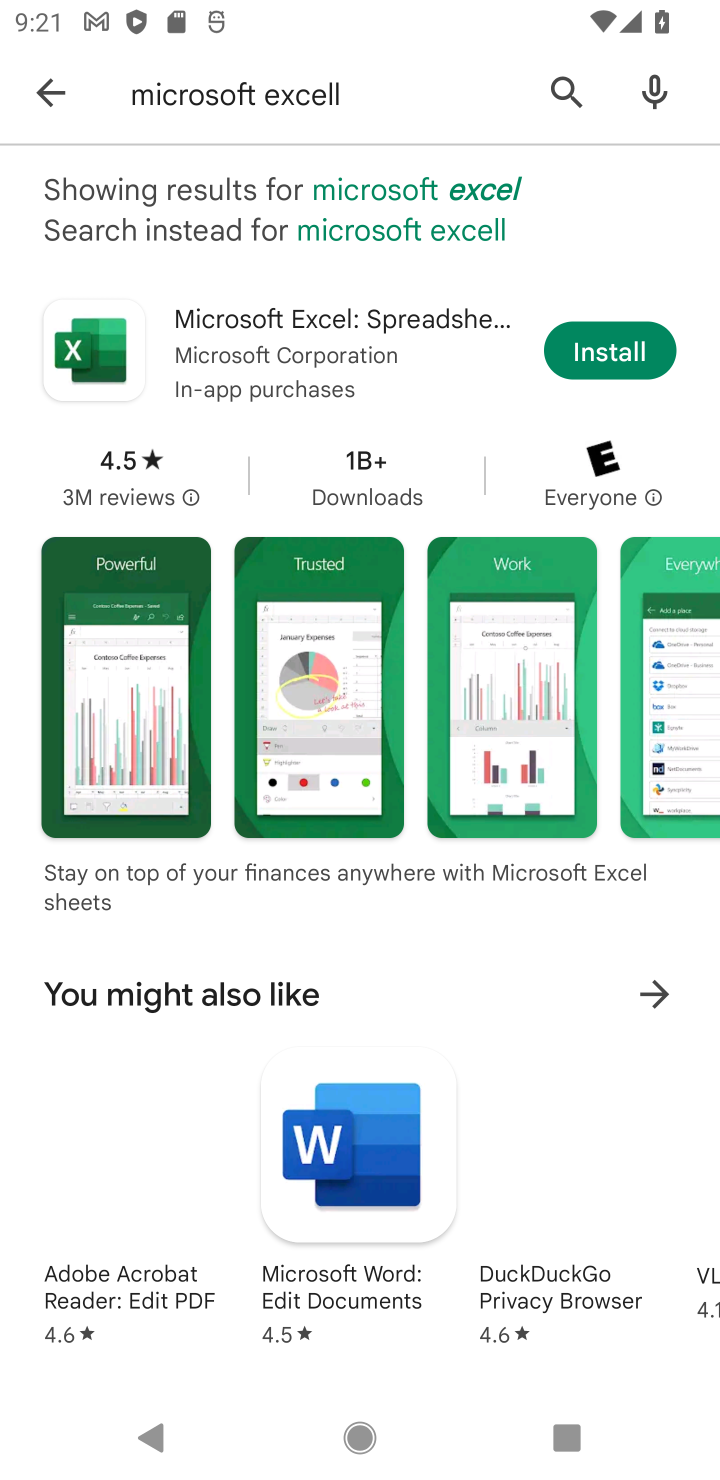
Step 34: click (602, 336)
Your task to perform on an android device: uninstall "Microsoft Excel" Image 35: 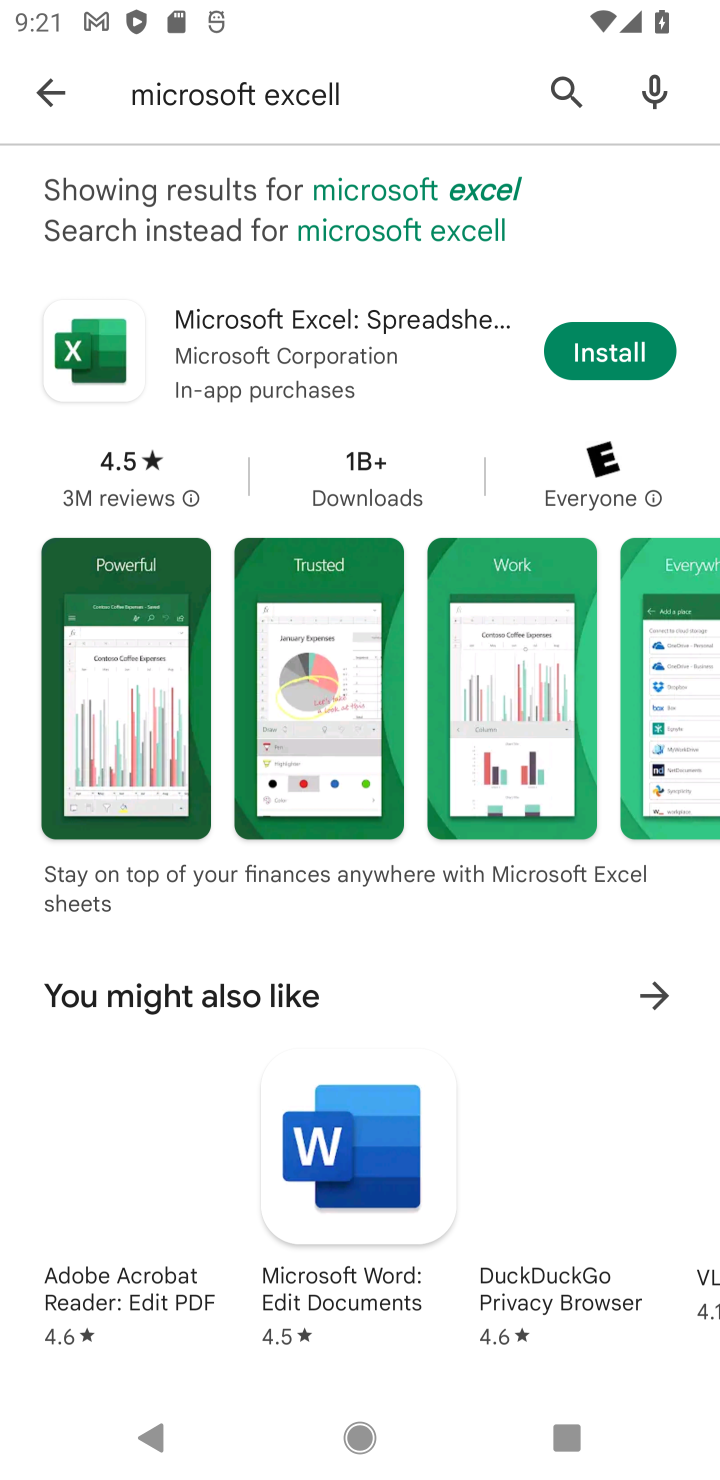
Step 35: click (644, 348)
Your task to perform on an android device: uninstall "Microsoft Excel" Image 36: 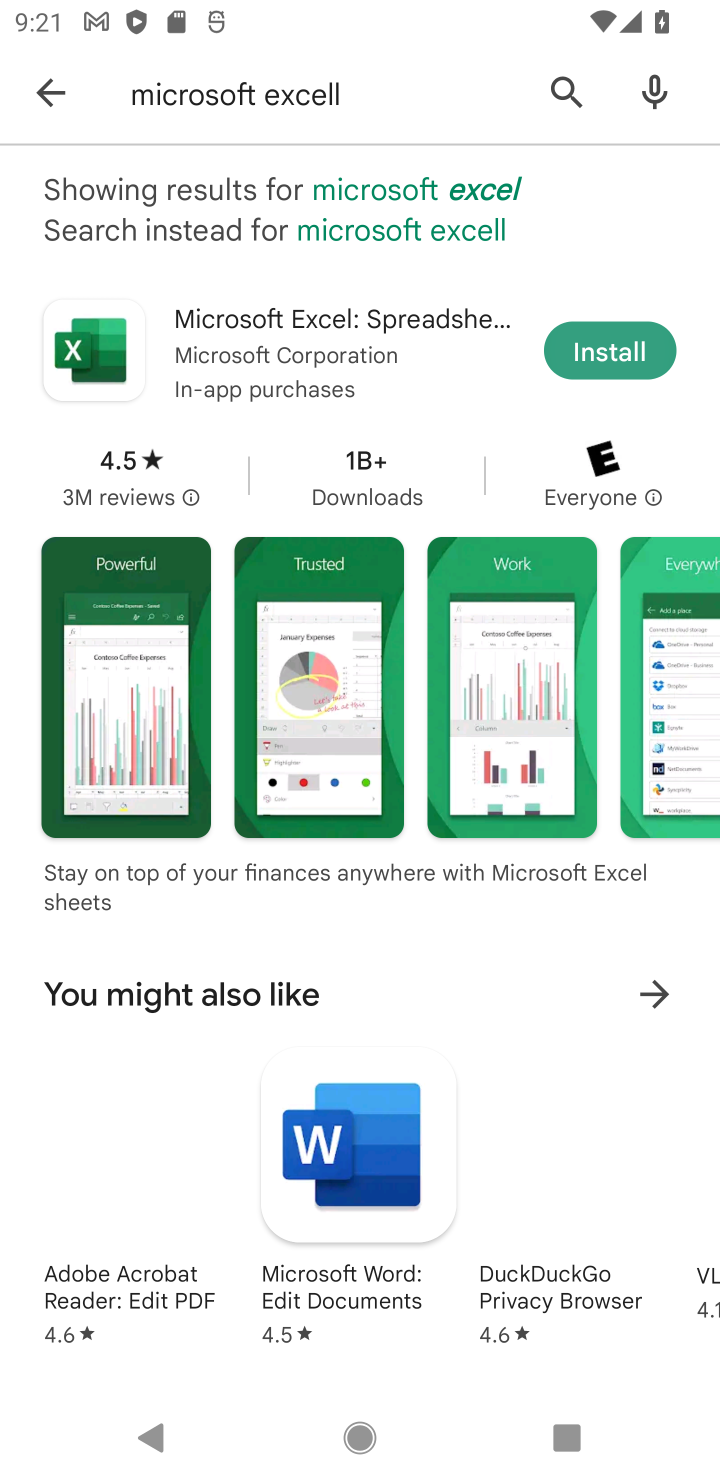
Step 36: click (645, 316)
Your task to perform on an android device: uninstall "Microsoft Excel" Image 37: 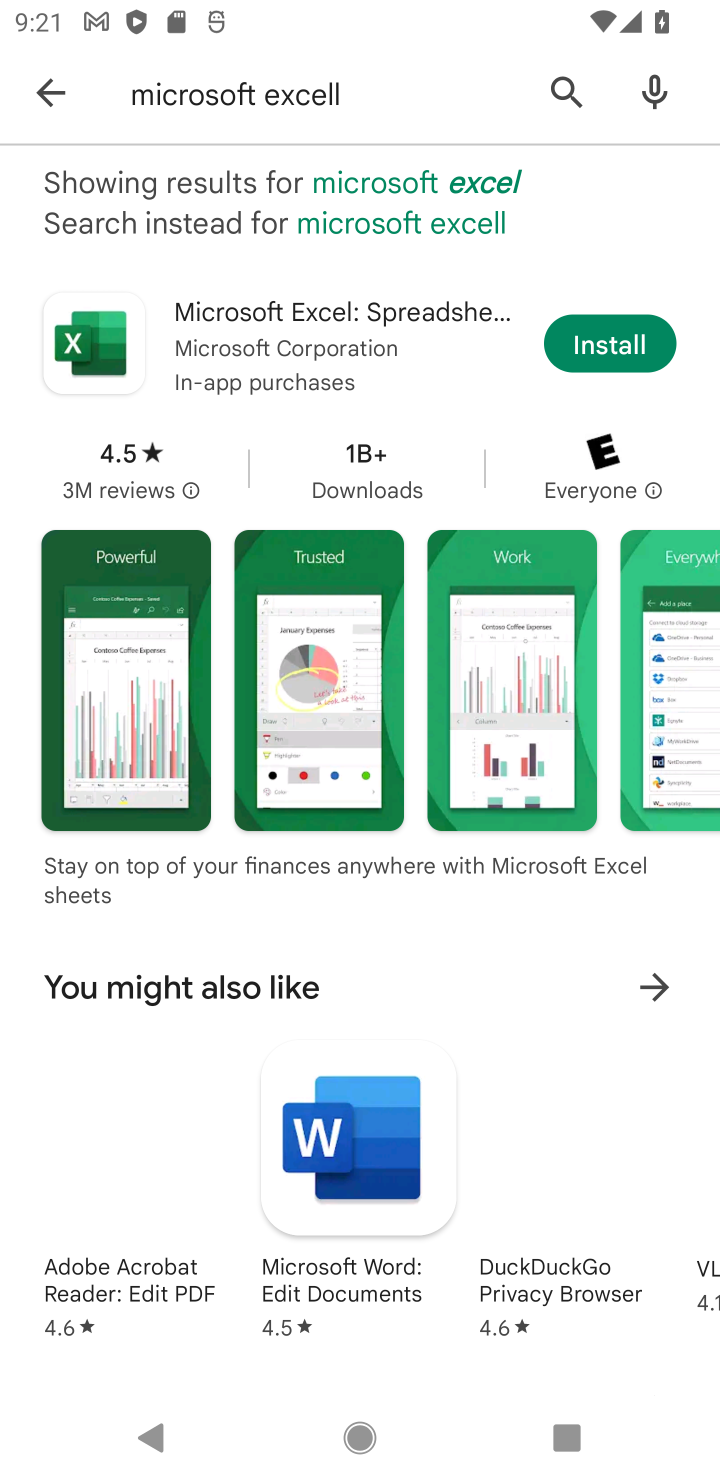
Step 37: click (615, 361)
Your task to perform on an android device: uninstall "Microsoft Excel" Image 38: 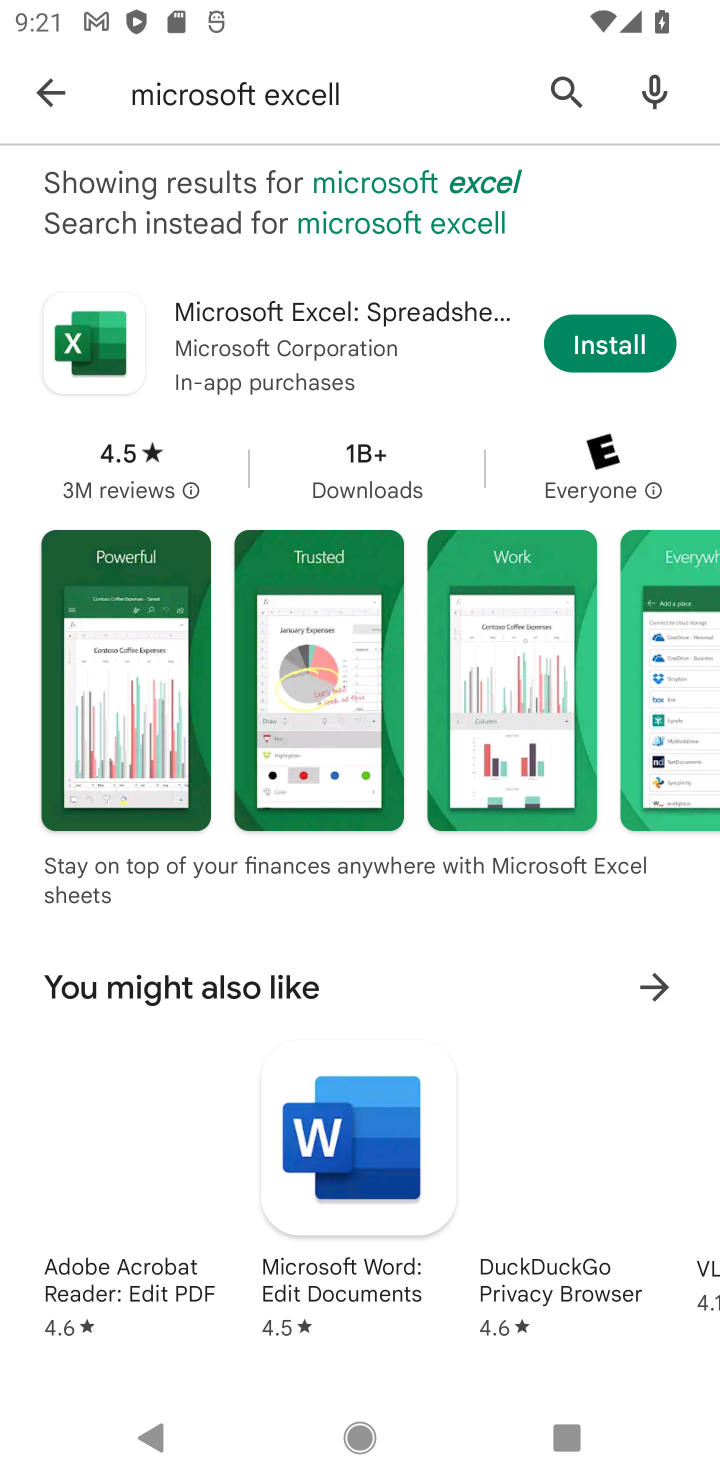
Step 38: click (633, 347)
Your task to perform on an android device: uninstall "Microsoft Excel" Image 39: 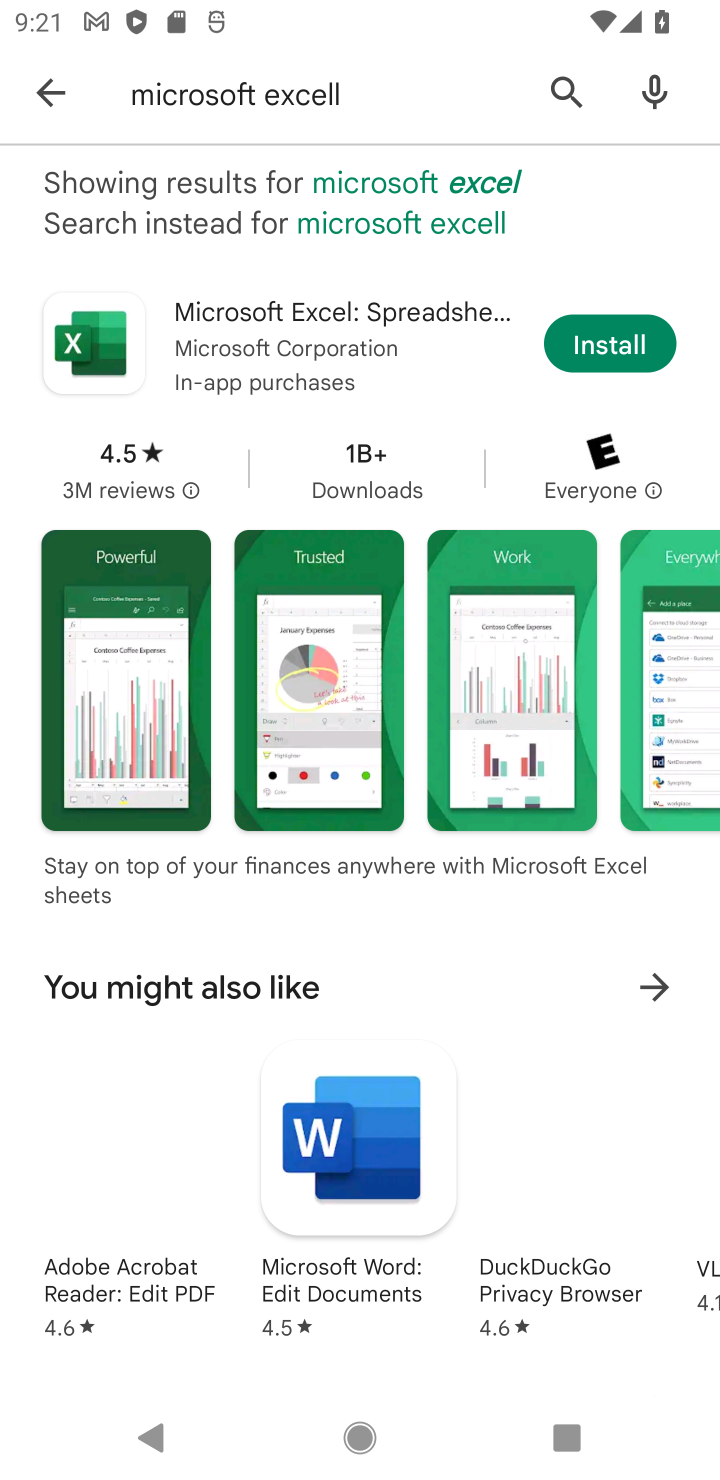
Step 39: click (645, 336)
Your task to perform on an android device: uninstall "Microsoft Excel" Image 40: 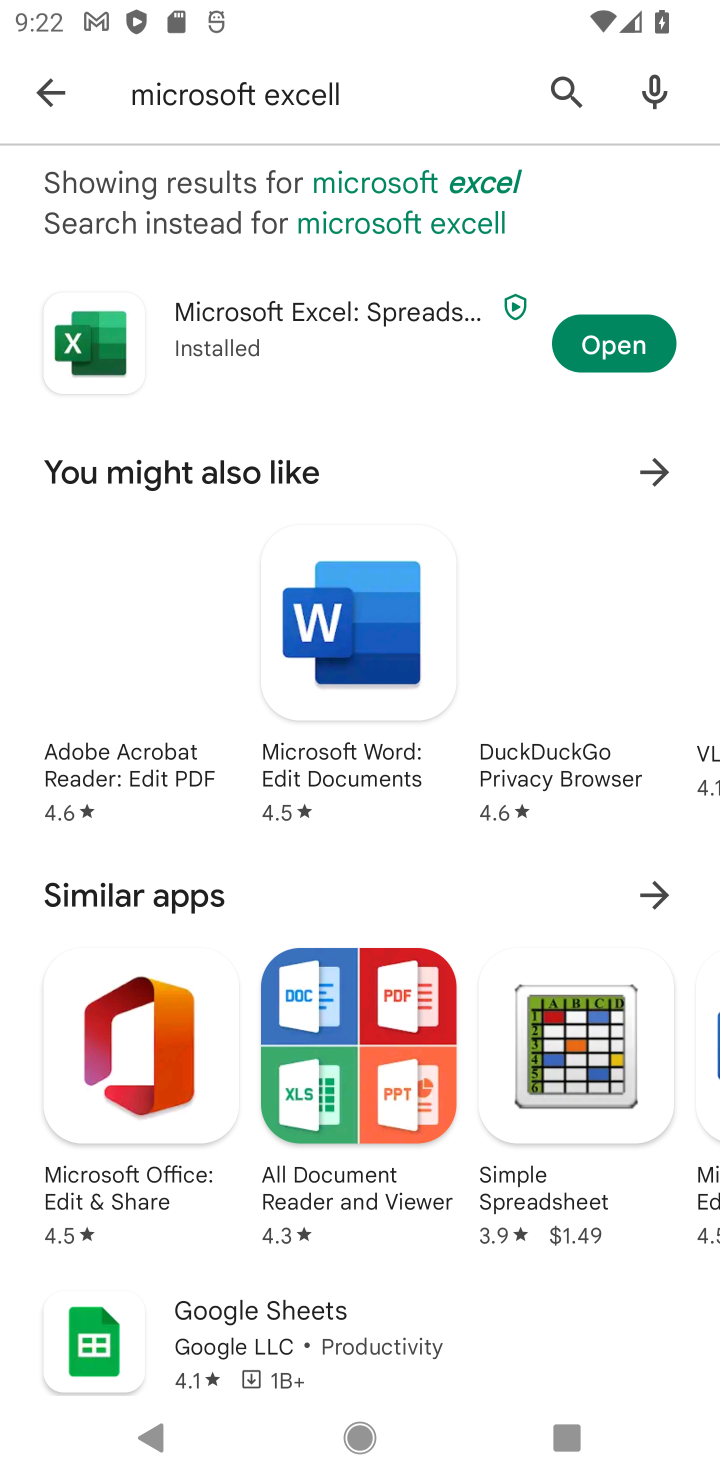
Step 40: click (606, 348)
Your task to perform on an android device: uninstall "Microsoft Excel" Image 41: 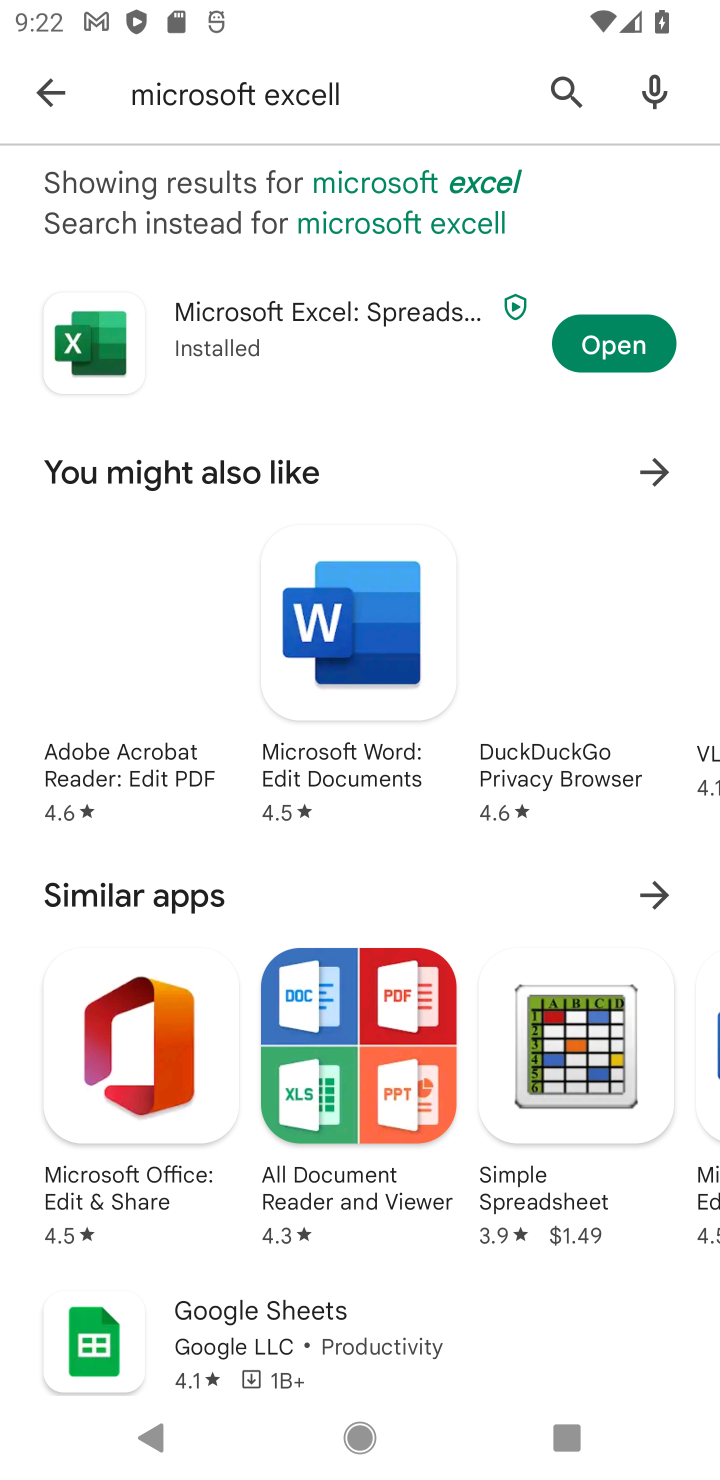
Step 41: click (622, 352)
Your task to perform on an android device: uninstall "Microsoft Excel" Image 42: 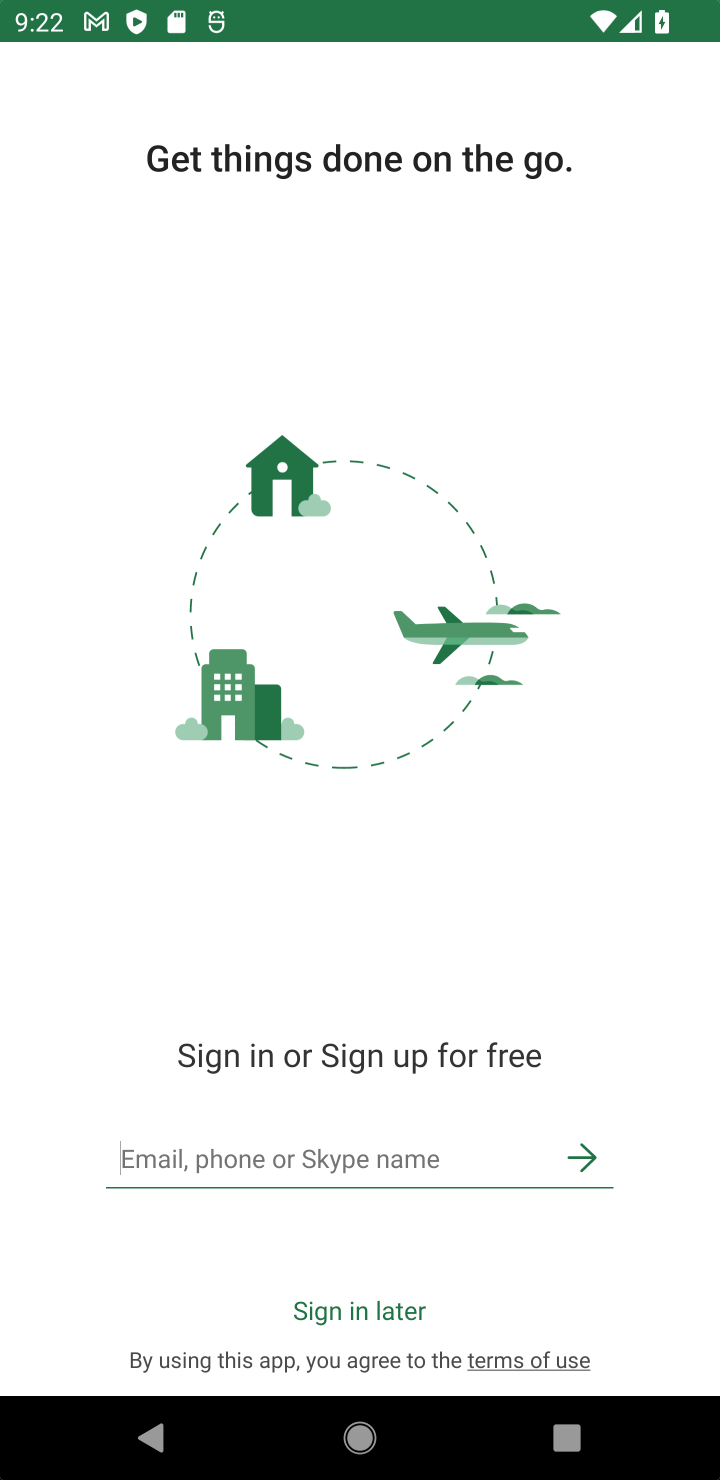
Step 42: task complete